Your task to perform on an android device: View the shopping cart on amazon. Search for "bose soundsport free" on amazon, select the first entry, add it to the cart, then select checkout. Image 0: 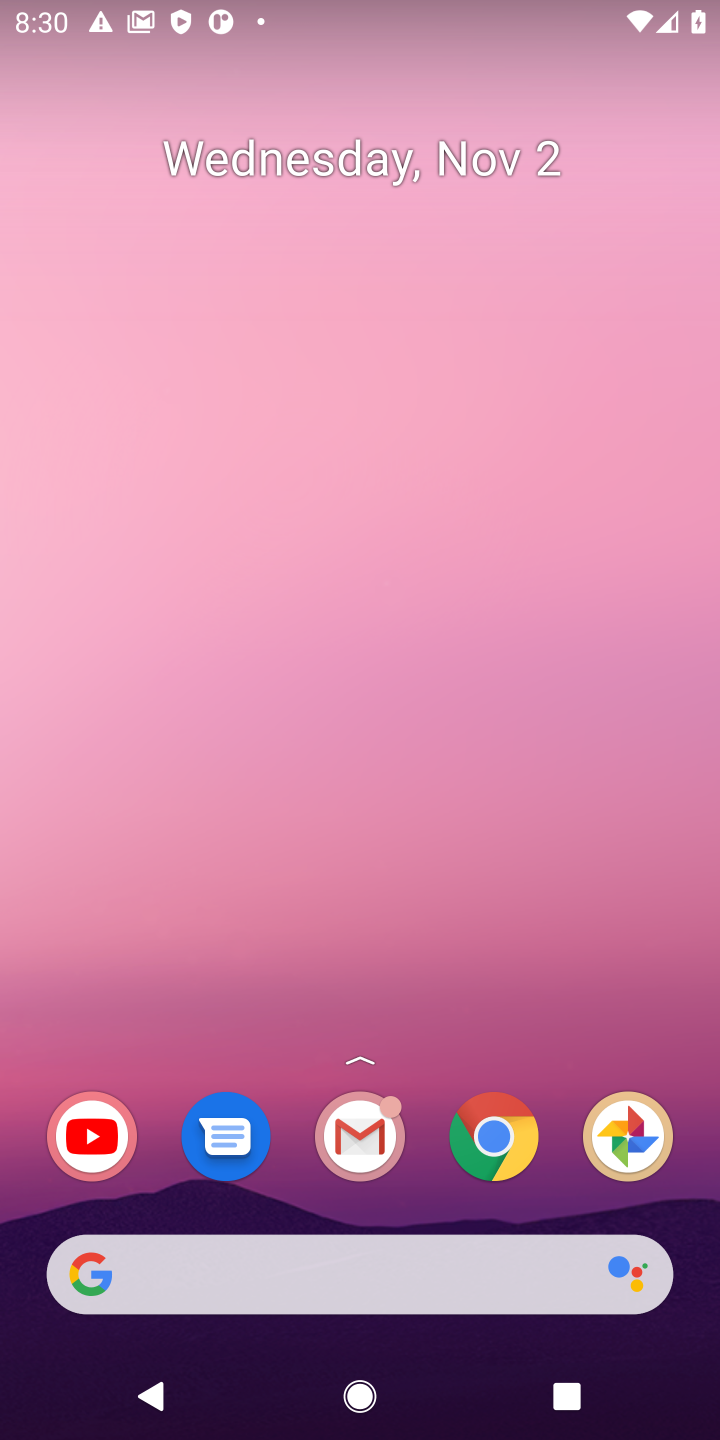
Step 0: drag from (303, 1112) to (332, 583)
Your task to perform on an android device: View the shopping cart on amazon. Search for "bose soundsport free" on amazon, select the first entry, add it to the cart, then select checkout. Image 1: 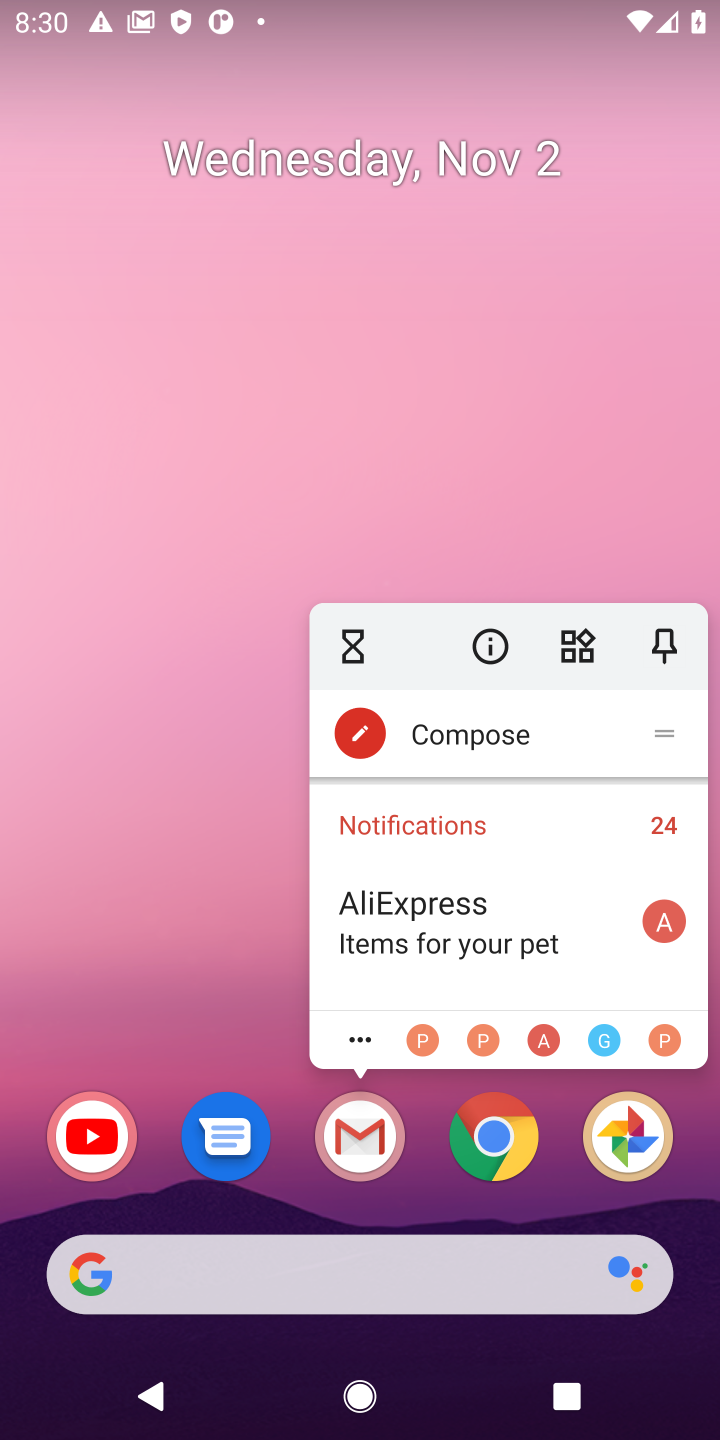
Step 1: click (51, 625)
Your task to perform on an android device: View the shopping cart on amazon. Search for "bose soundsport free" on amazon, select the first entry, add it to the cart, then select checkout. Image 2: 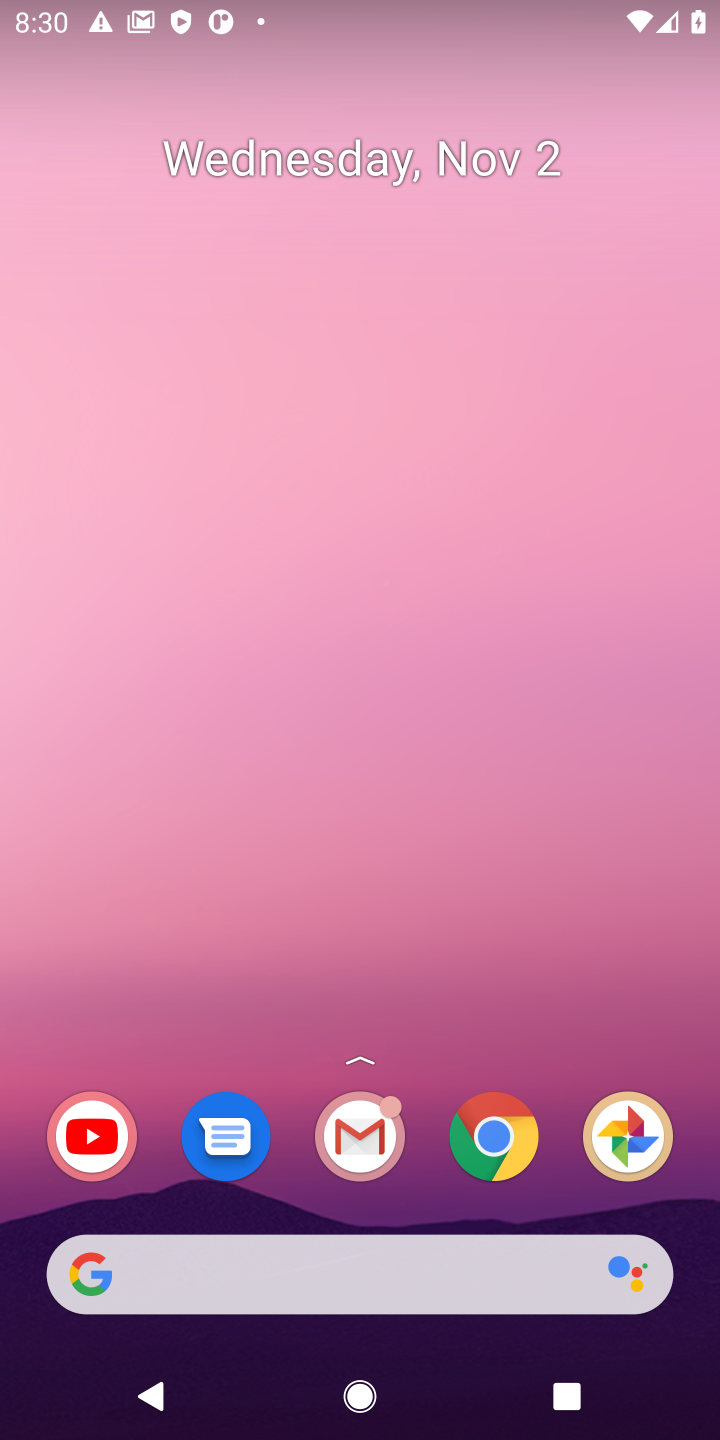
Step 2: drag from (351, 1279) to (311, 440)
Your task to perform on an android device: View the shopping cart on amazon. Search for "bose soundsport free" on amazon, select the first entry, add it to the cart, then select checkout. Image 3: 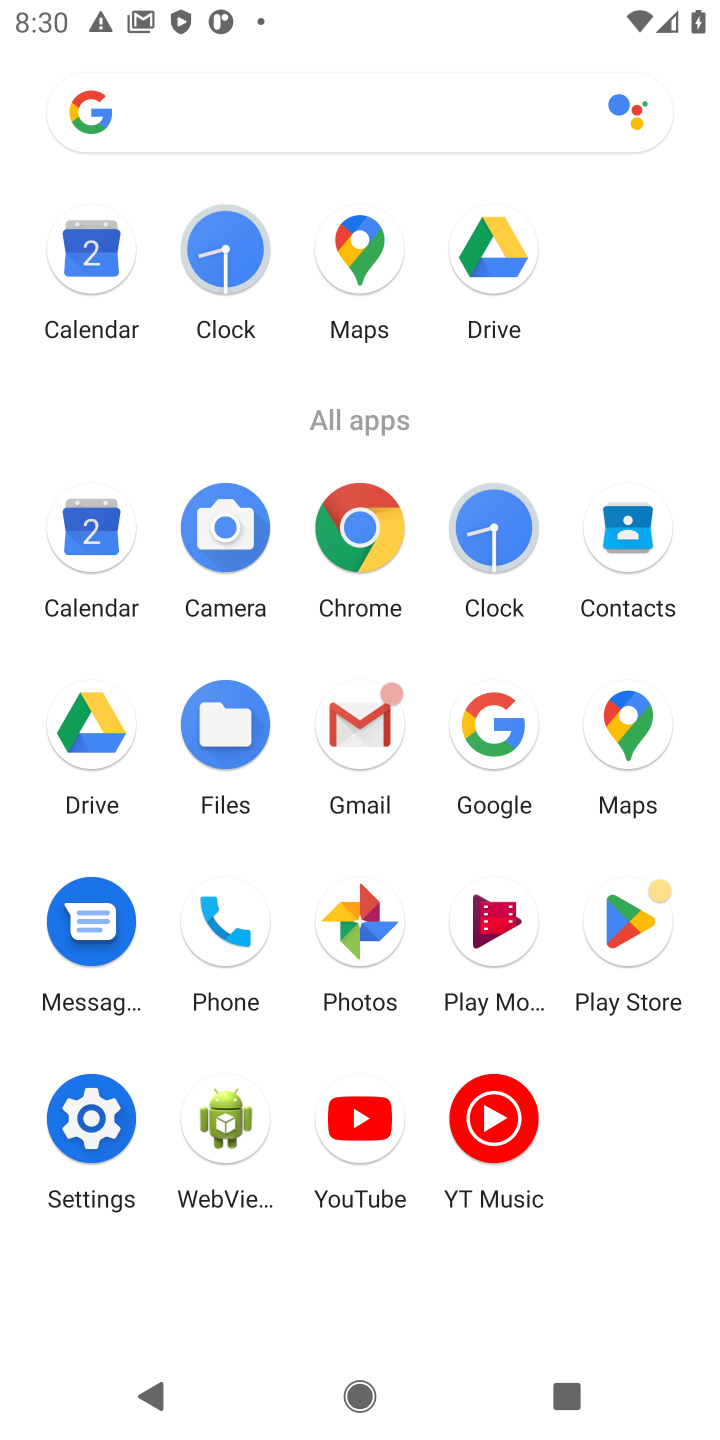
Step 3: click (512, 709)
Your task to perform on an android device: View the shopping cart on amazon. Search for "bose soundsport free" on amazon, select the first entry, add it to the cart, then select checkout. Image 4: 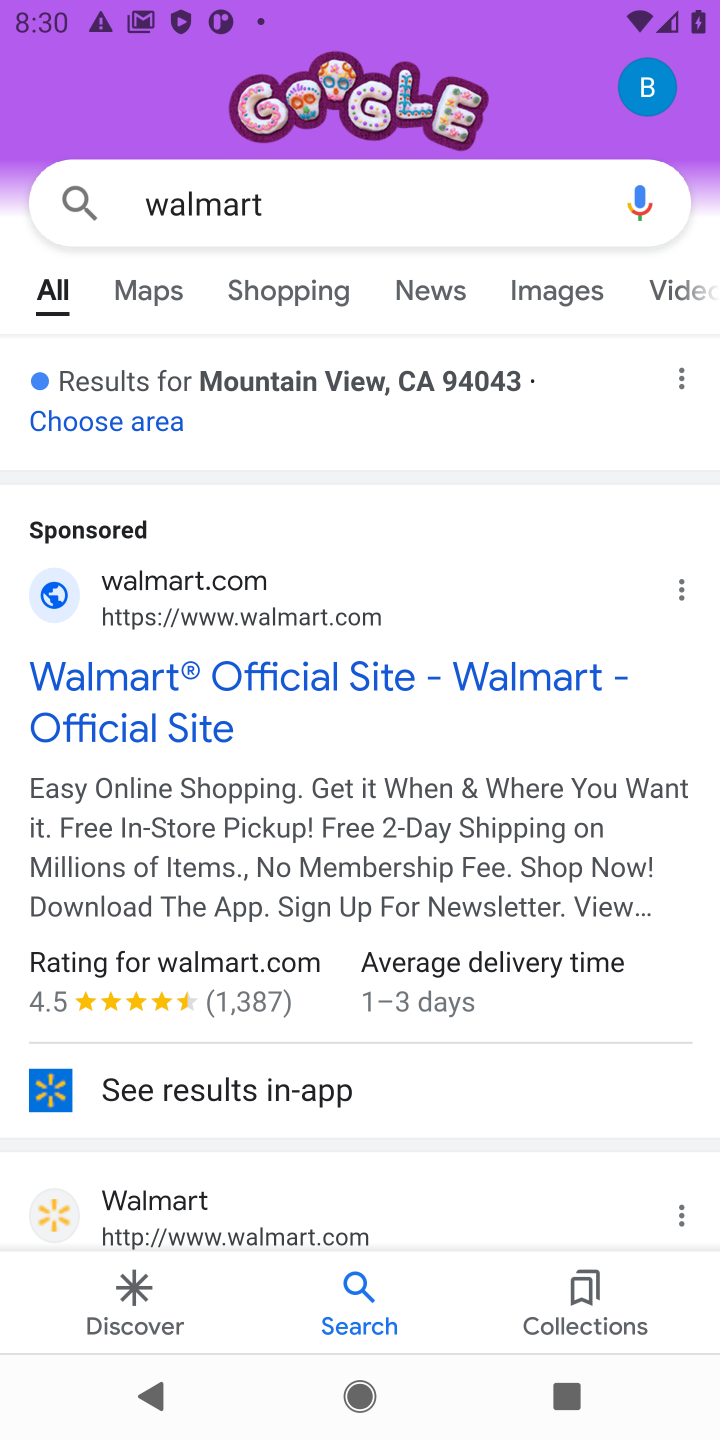
Step 4: click (319, 183)
Your task to perform on an android device: View the shopping cart on amazon. Search for "bose soundsport free" on amazon, select the first entry, add it to the cart, then select checkout. Image 5: 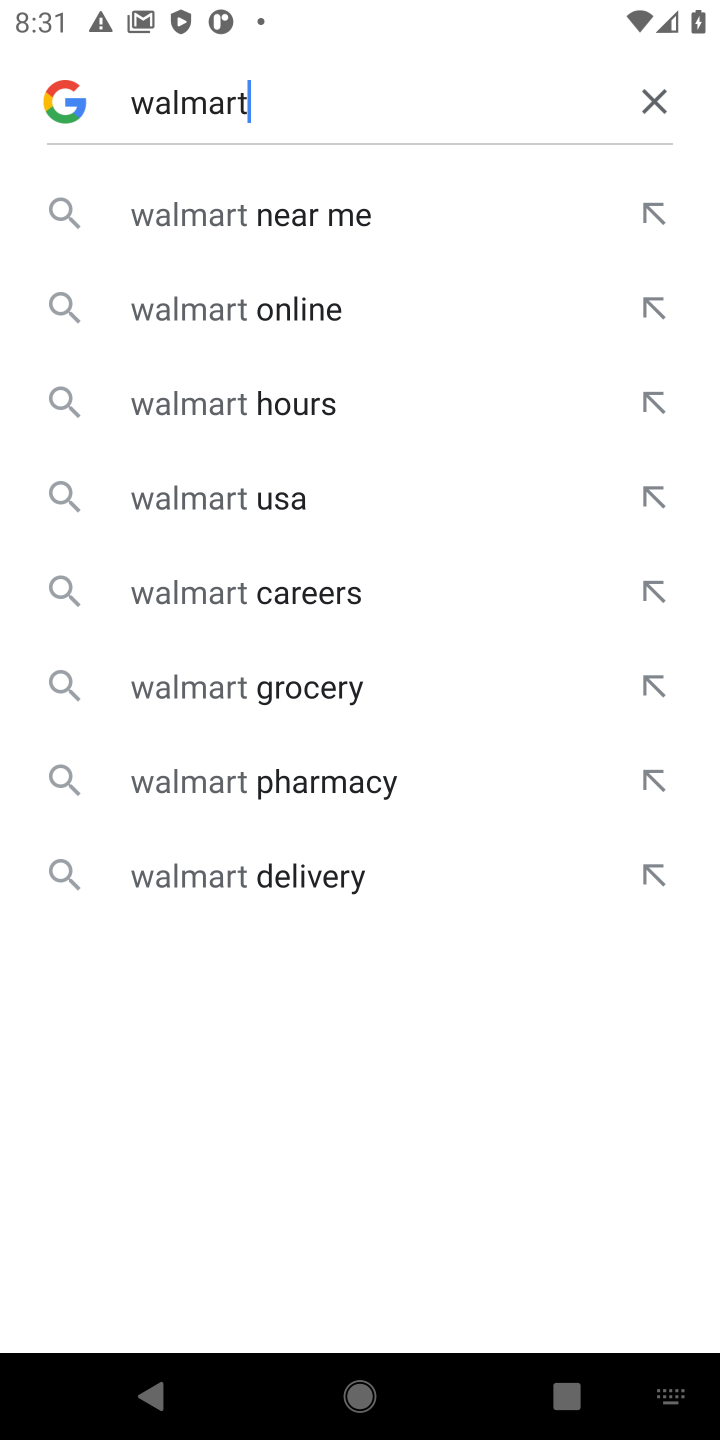
Step 5: click (635, 82)
Your task to perform on an android device: View the shopping cart on amazon. Search for "bose soundsport free" on amazon, select the first entry, add it to the cart, then select checkout. Image 6: 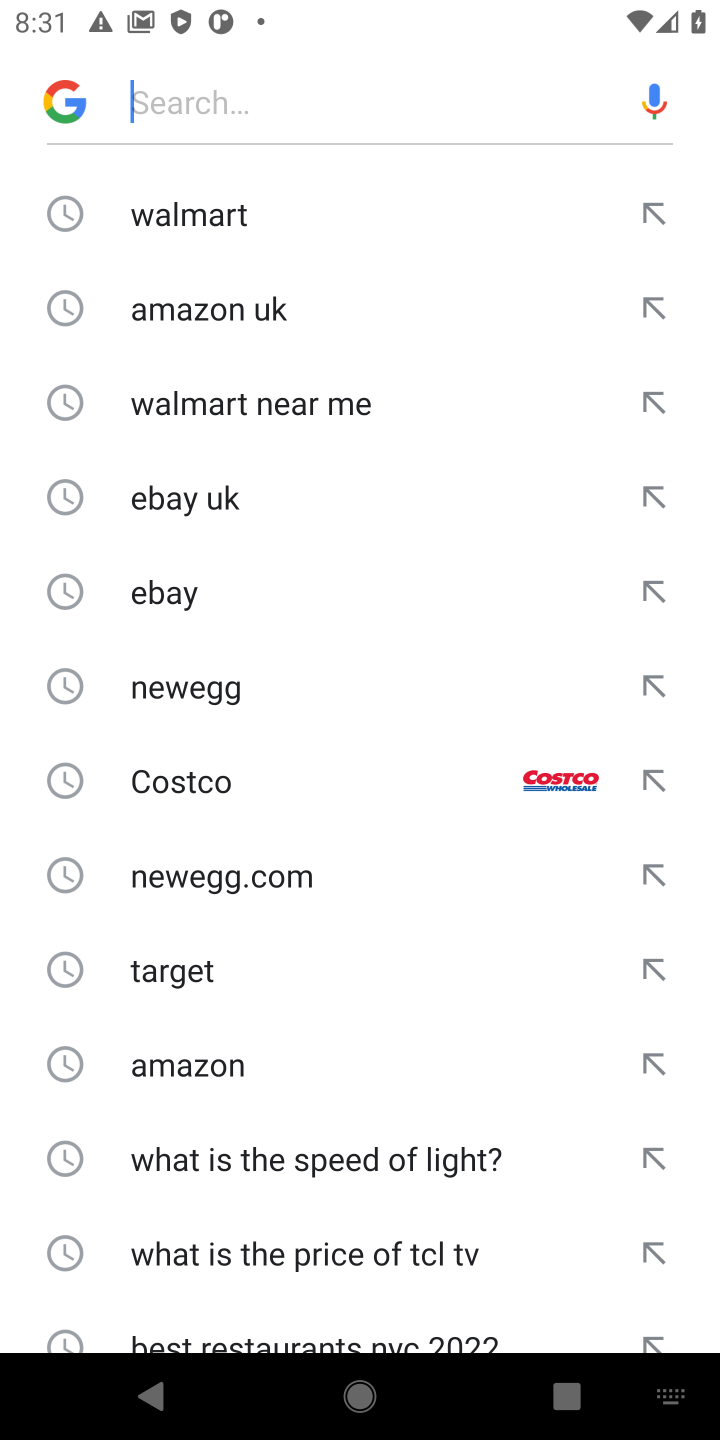
Step 6: click (158, 1038)
Your task to perform on an android device: View the shopping cart on amazon. Search for "bose soundsport free" on amazon, select the first entry, add it to the cart, then select checkout. Image 7: 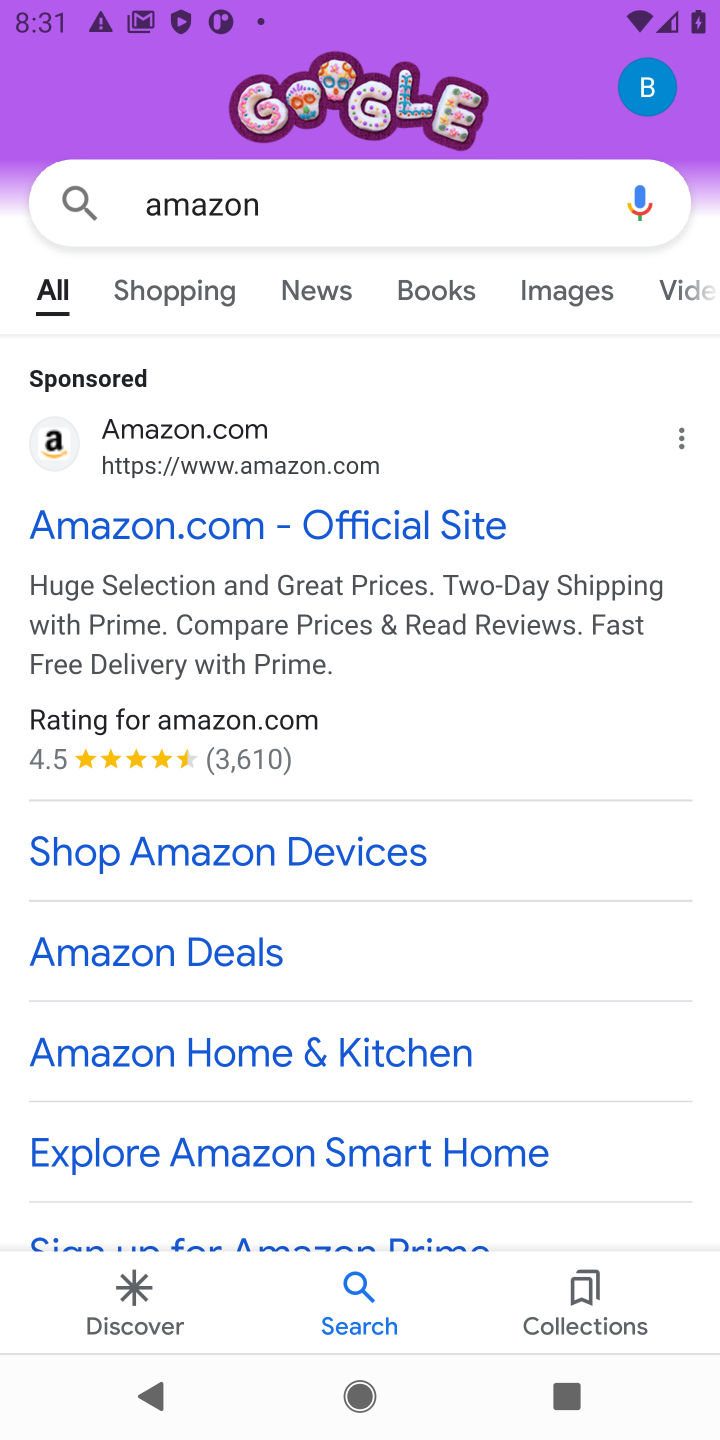
Step 7: click (180, 514)
Your task to perform on an android device: View the shopping cart on amazon. Search for "bose soundsport free" on amazon, select the first entry, add it to the cart, then select checkout. Image 8: 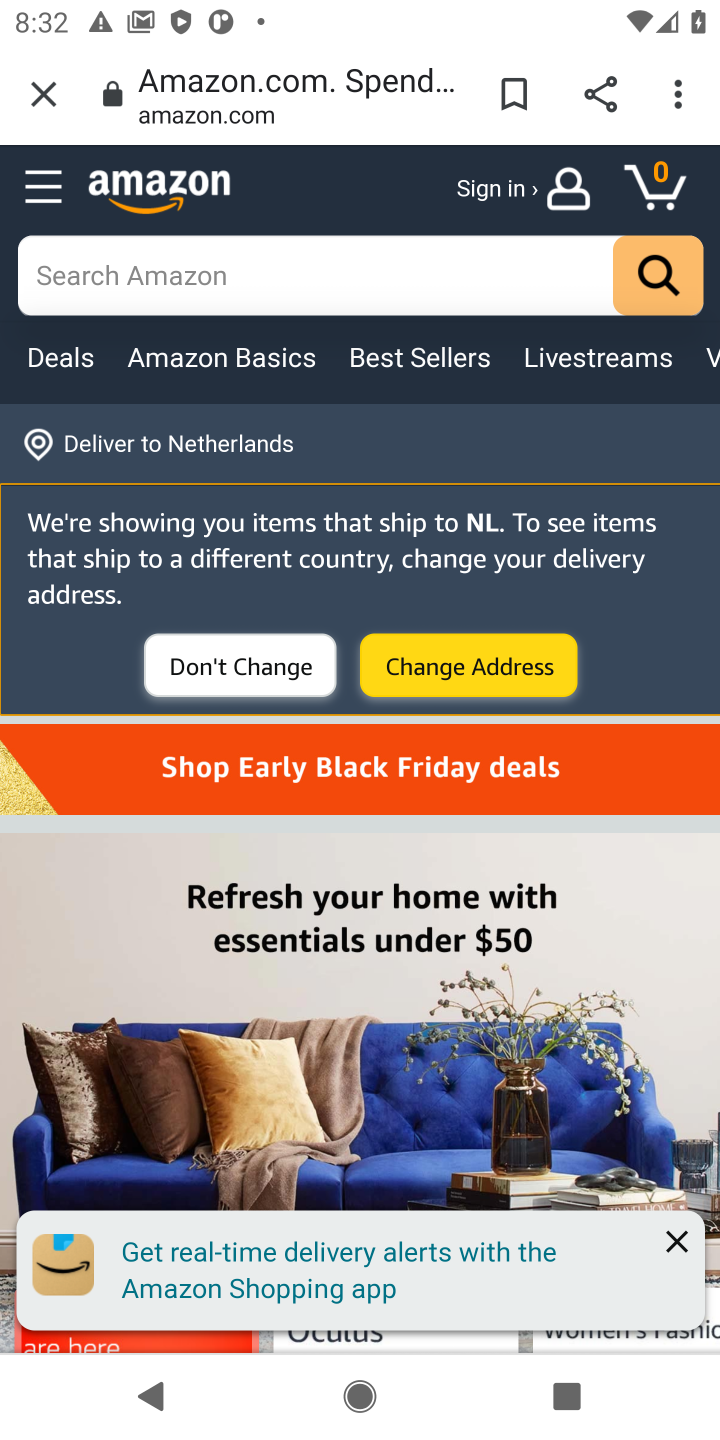
Step 8: click (286, 268)
Your task to perform on an android device: View the shopping cart on amazon. Search for "bose soundsport free" on amazon, select the first entry, add it to the cart, then select checkout. Image 9: 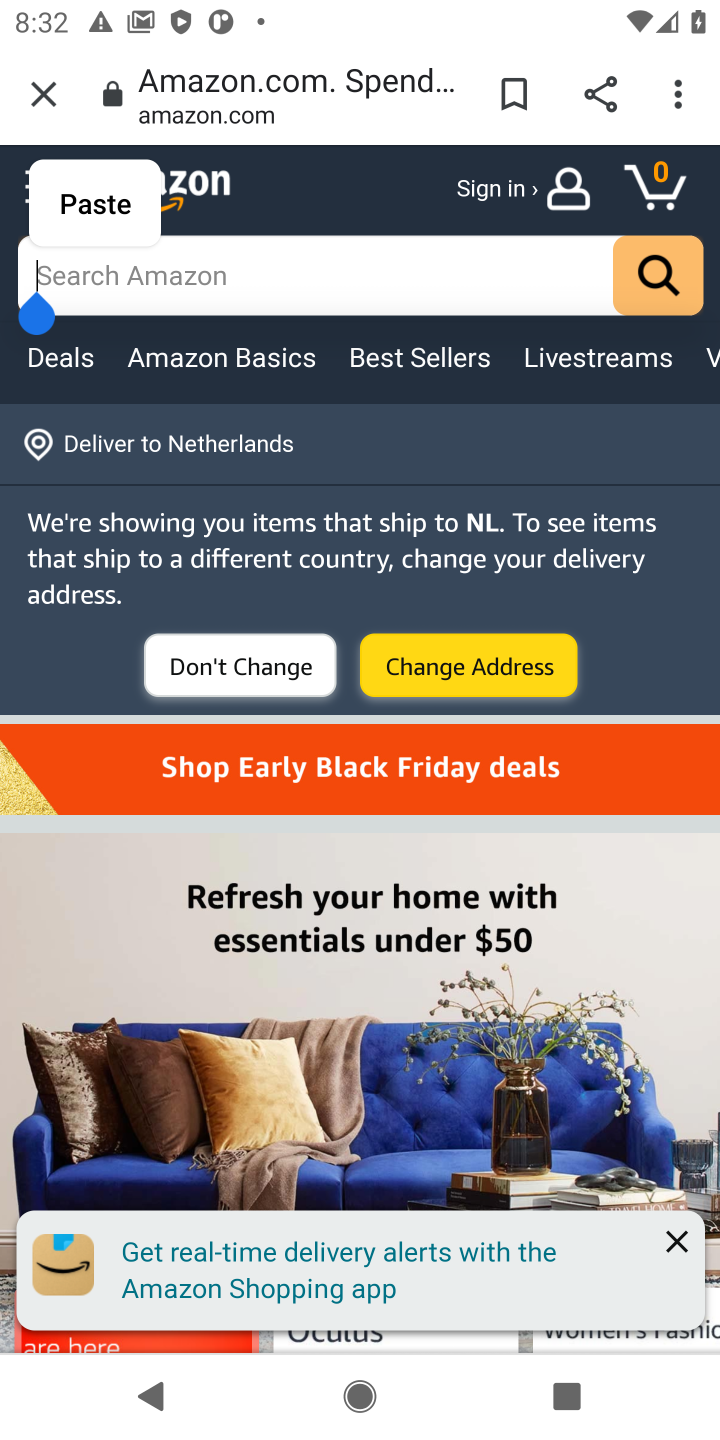
Step 9: click (282, 268)
Your task to perform on an android device: View the shopping cart on amazon. Search for "bose soundsport free" on amazon, select the first entry, add it to the cart, then select checkout. Image 10: 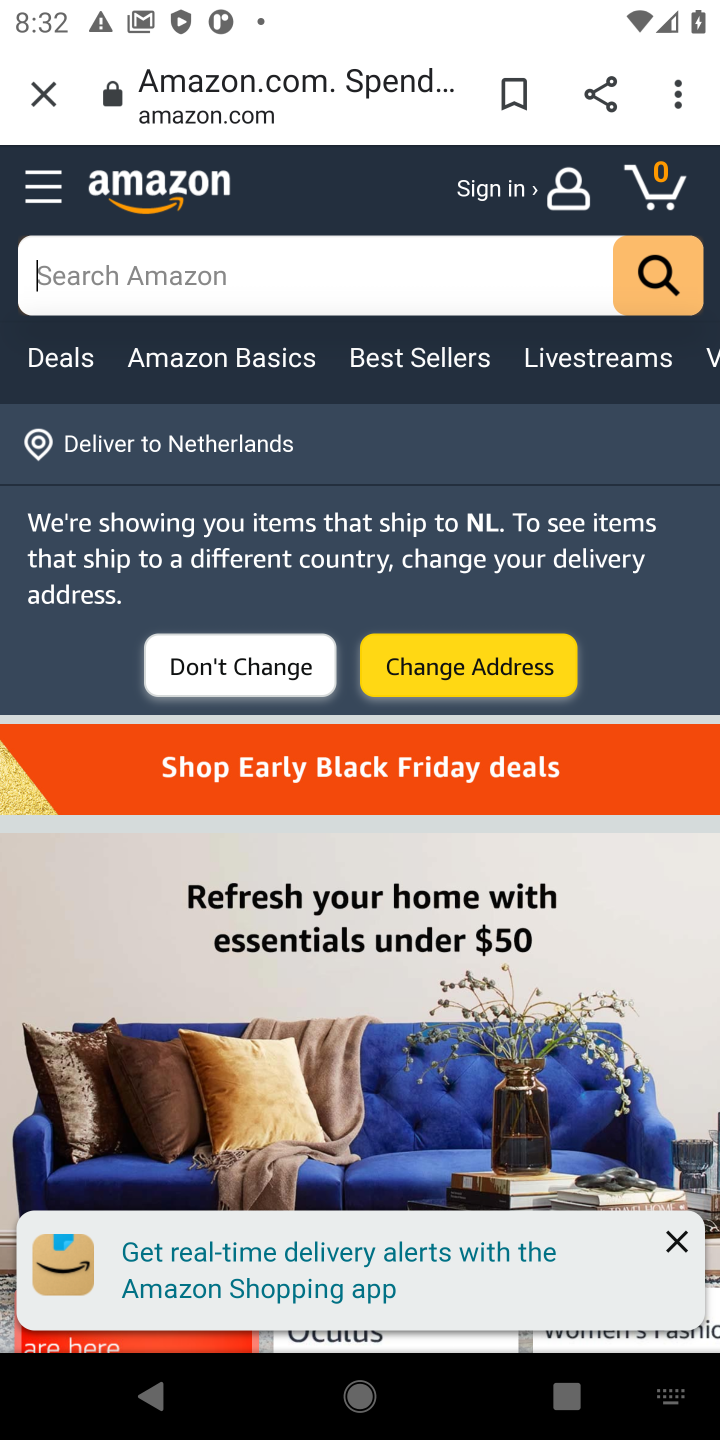
Step 10: type "bose soundsport  "
Your task to perform on an android device: View the shopping cart on amazon. Search for "bose soundsport free" on amazon, select the first entry, add it to the cart, then select checkout. Image 11: 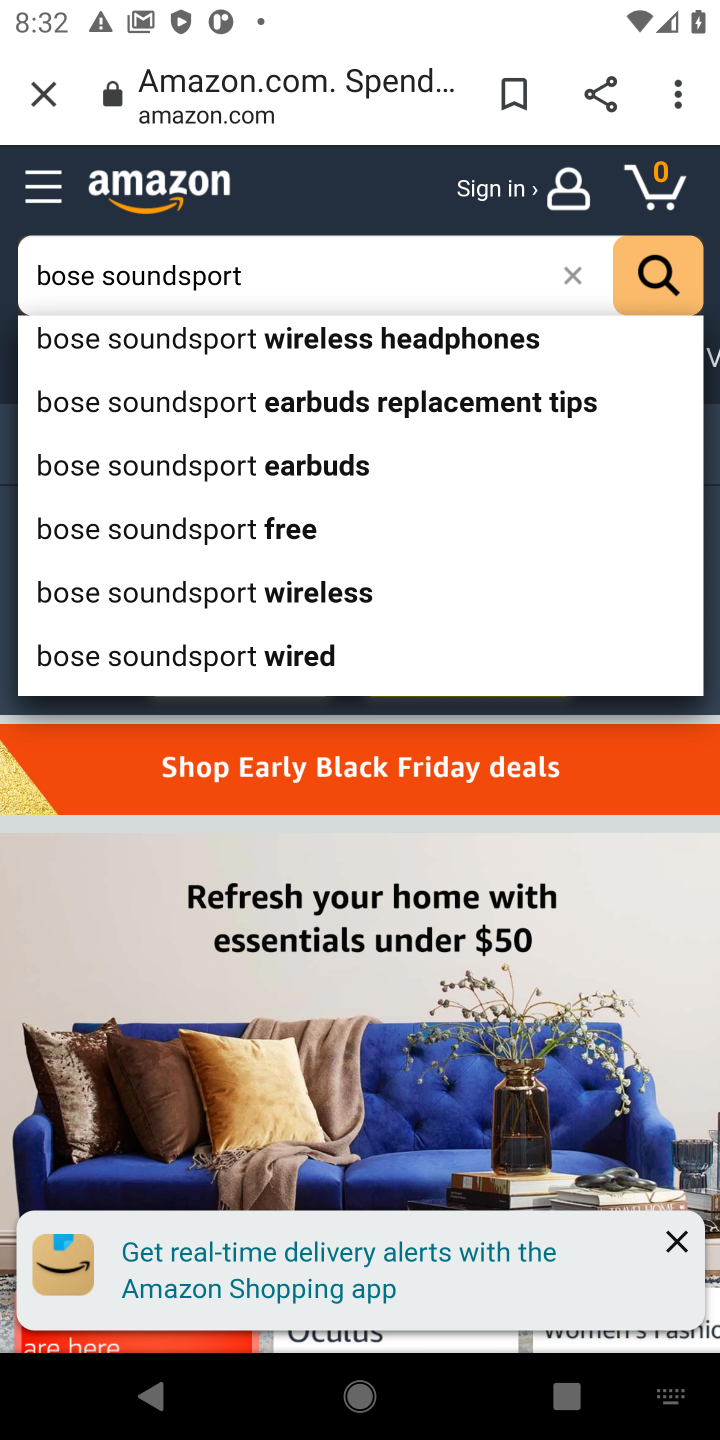
Step 11: click (159, 517)
Your task to perform on an android device: View the shopping cart on amazon. Search for "bose soundsport free" on amazon, select the first entry, add it to the cart, then select checkout. Image 12: 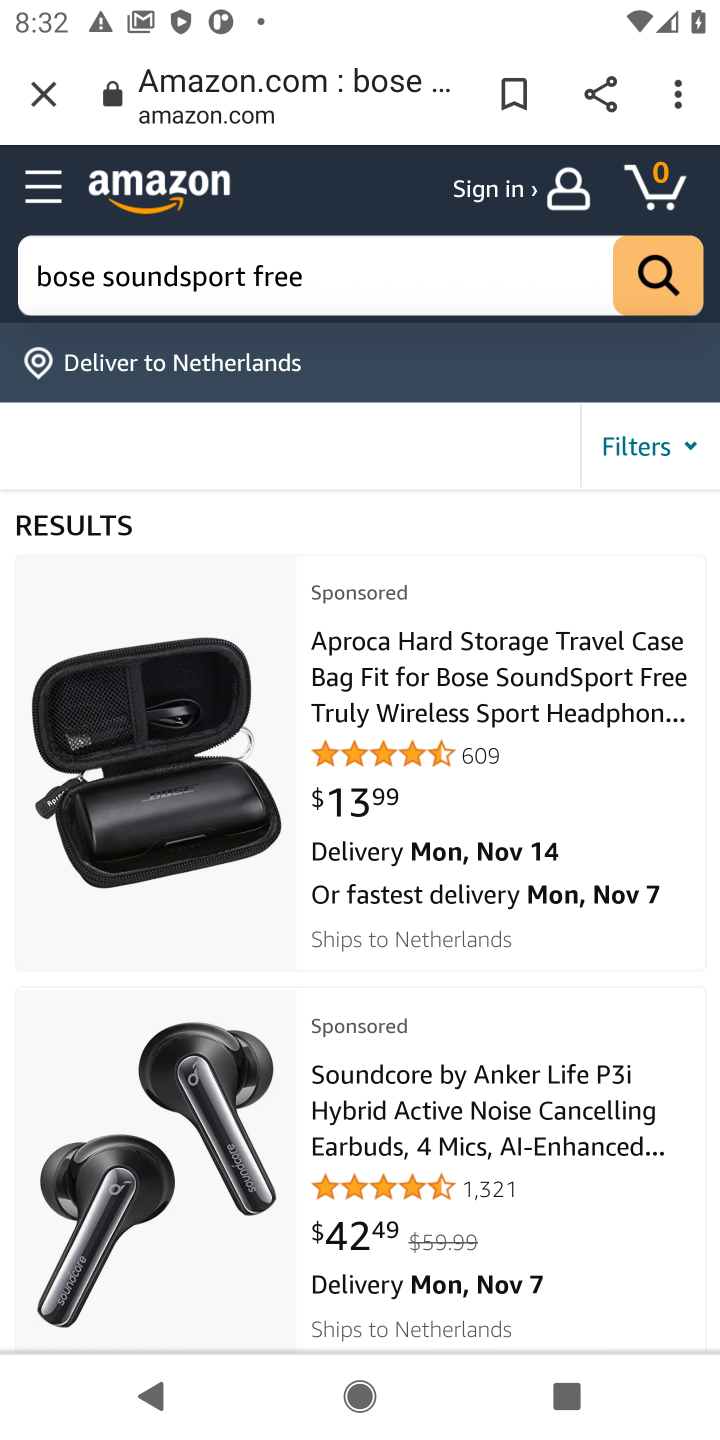
Step 12: click (482, 686)
Your task to perform on an android device: View the shopping cart on amazon. Search for "bose soundsport free" on amazon, select the first entry, add it to the cart, then select checkout. Image 13: 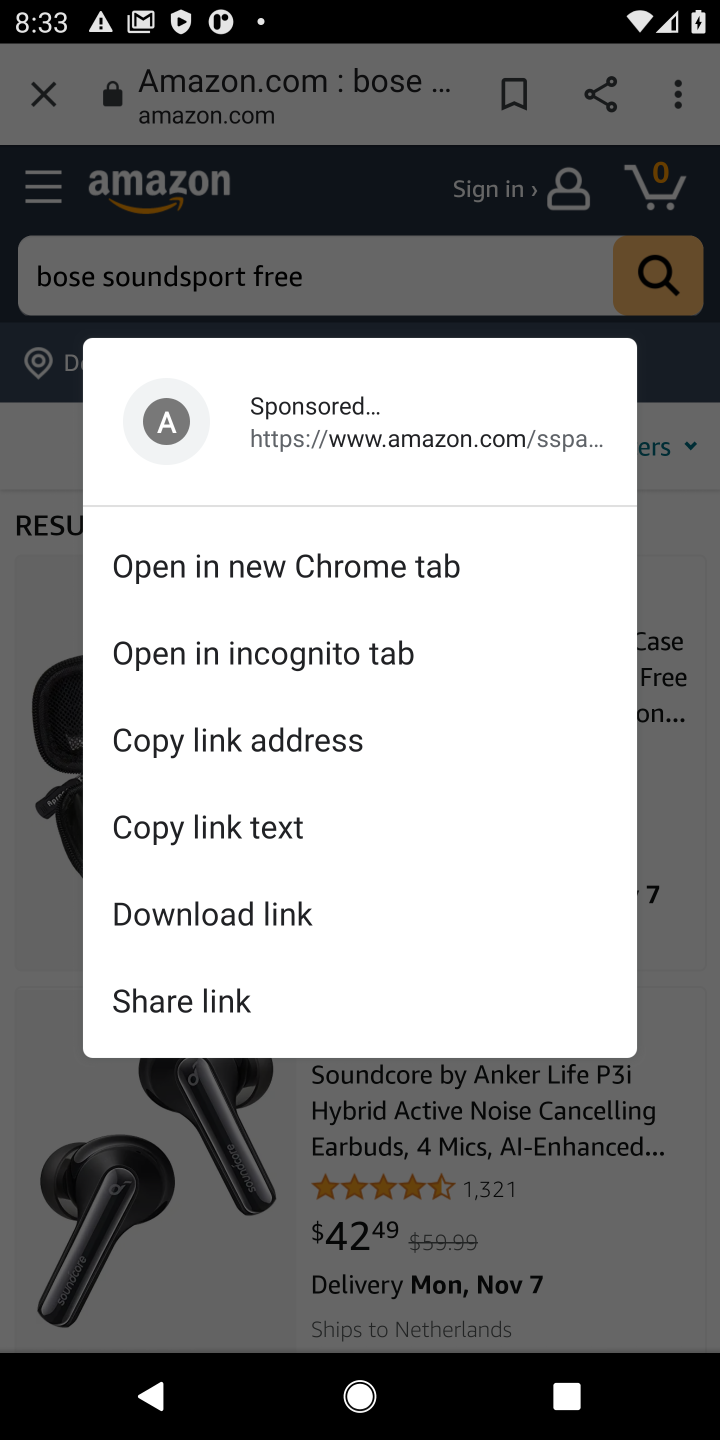
Step 13: click (646, 1184)
Your task to perform on an android device: View the shopping cart on amazon. Search for "bose soundsport free" on amazon, select the first entry, add it to the cart, then select checkout. Image 14: 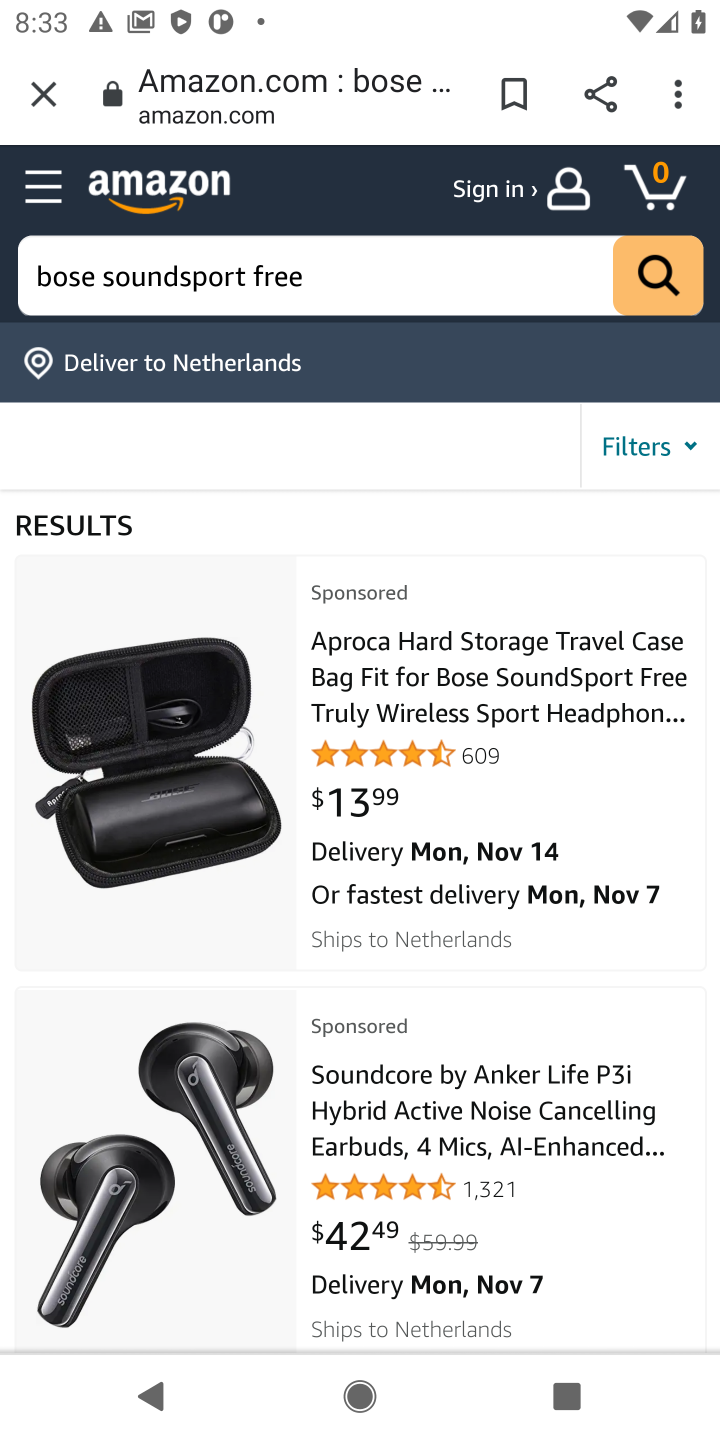
Step 14: drag from (399, 1012) to (457, 524)
Your task to perform on an android device: View the shopping cart on amazon. Search for "bose soundsport free" on amazon, select the first entry, add it to the cart, then select checkout. Image 15: 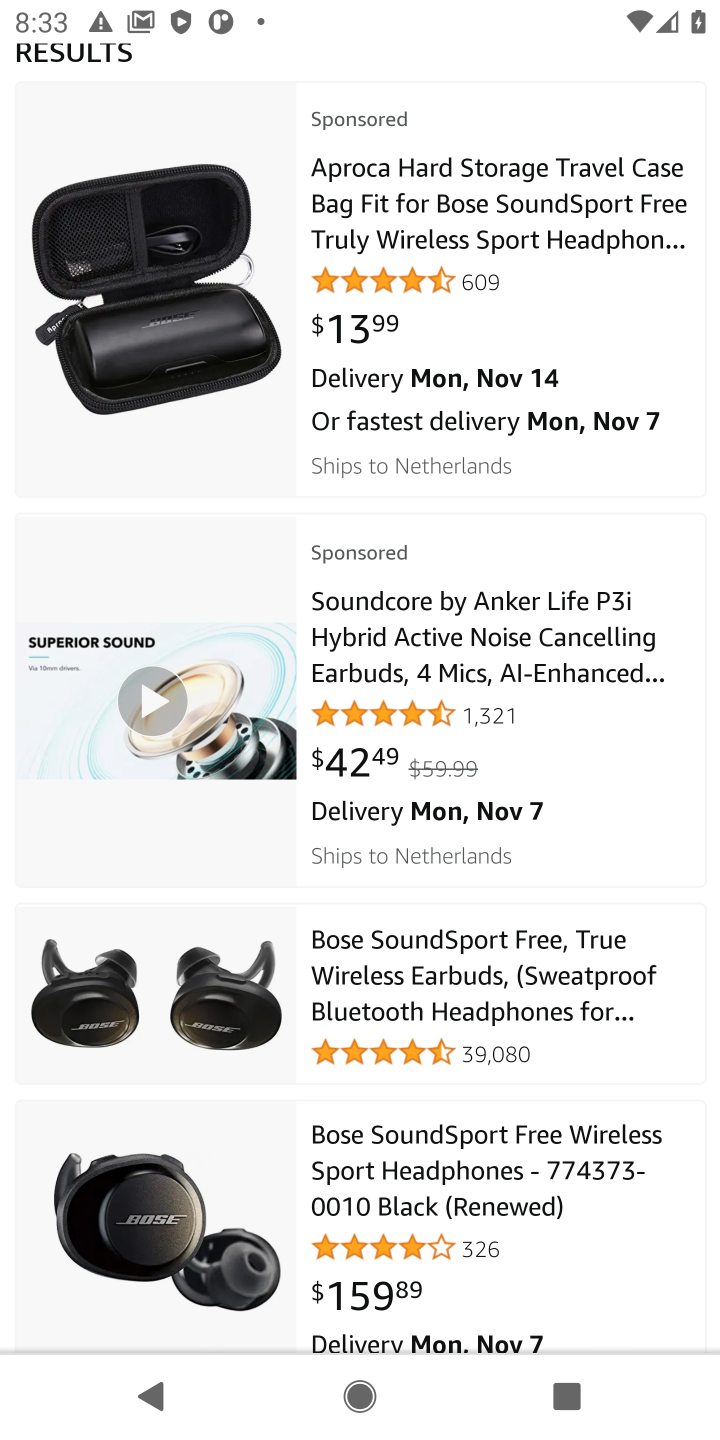
Step 15: click (421, 1131)
Your task to perform on an android device: View the shopping cart on amazon. Search for "bose soundsport free" on amazon, select the first entry, add it to the cart, then select checkout. Image 16: 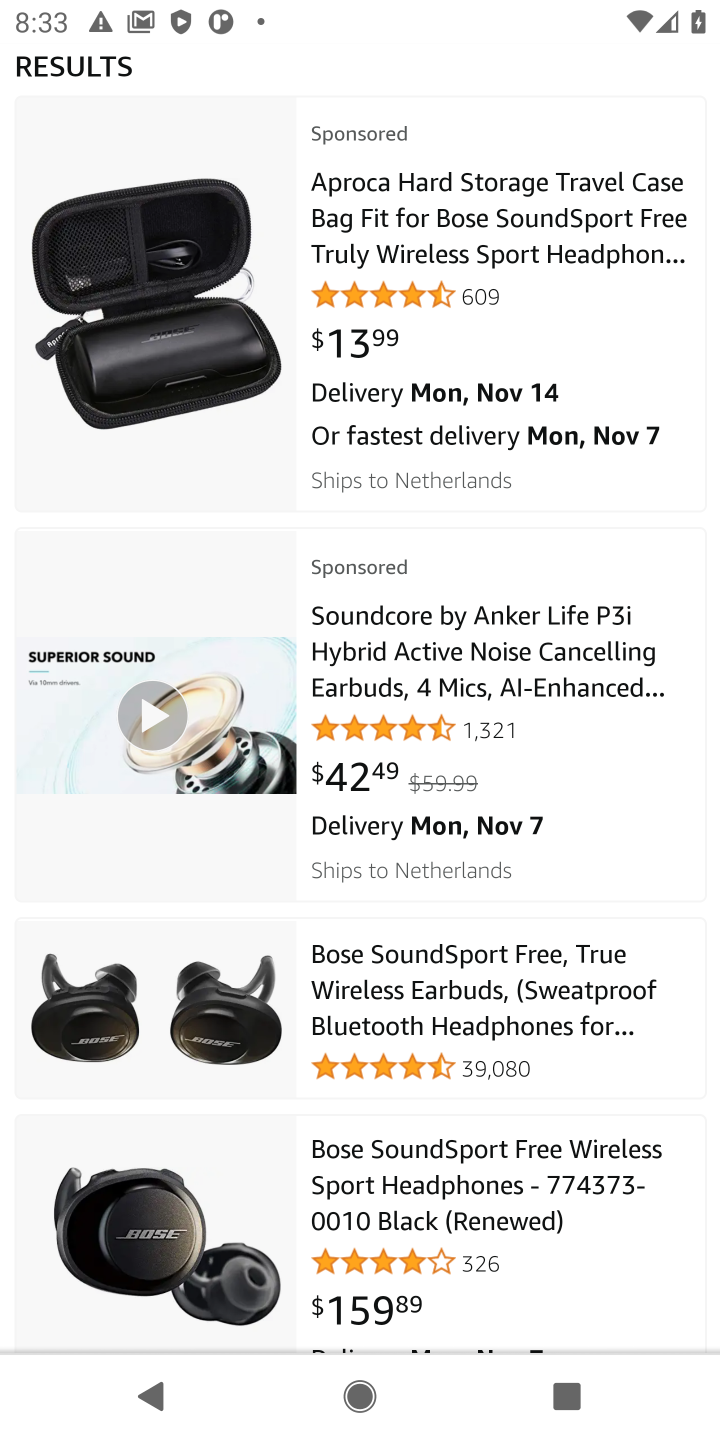
Step 16: press back button
Your task to perform on an android device: View the shopping cart on amazon. Search for "bose soundsport free" on amazon, select the first entry, add it to the cart, then select checkout. Image 17: 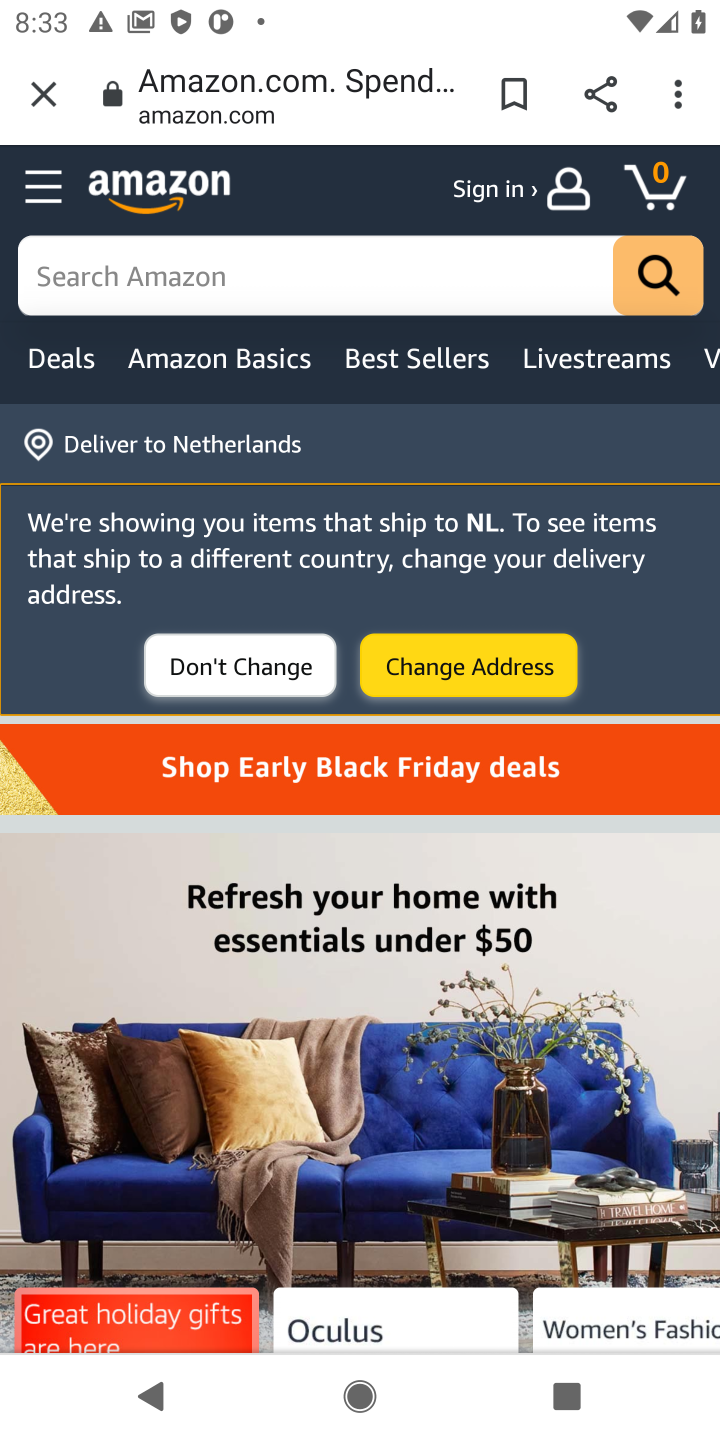
Step 17: click (427, 265)
Your task to perform on an android device: View the shopping cart on amazon. Search for "bose soundsport free" on amazon, select the first entry, add it to the cart, then select checkout. Image 18: 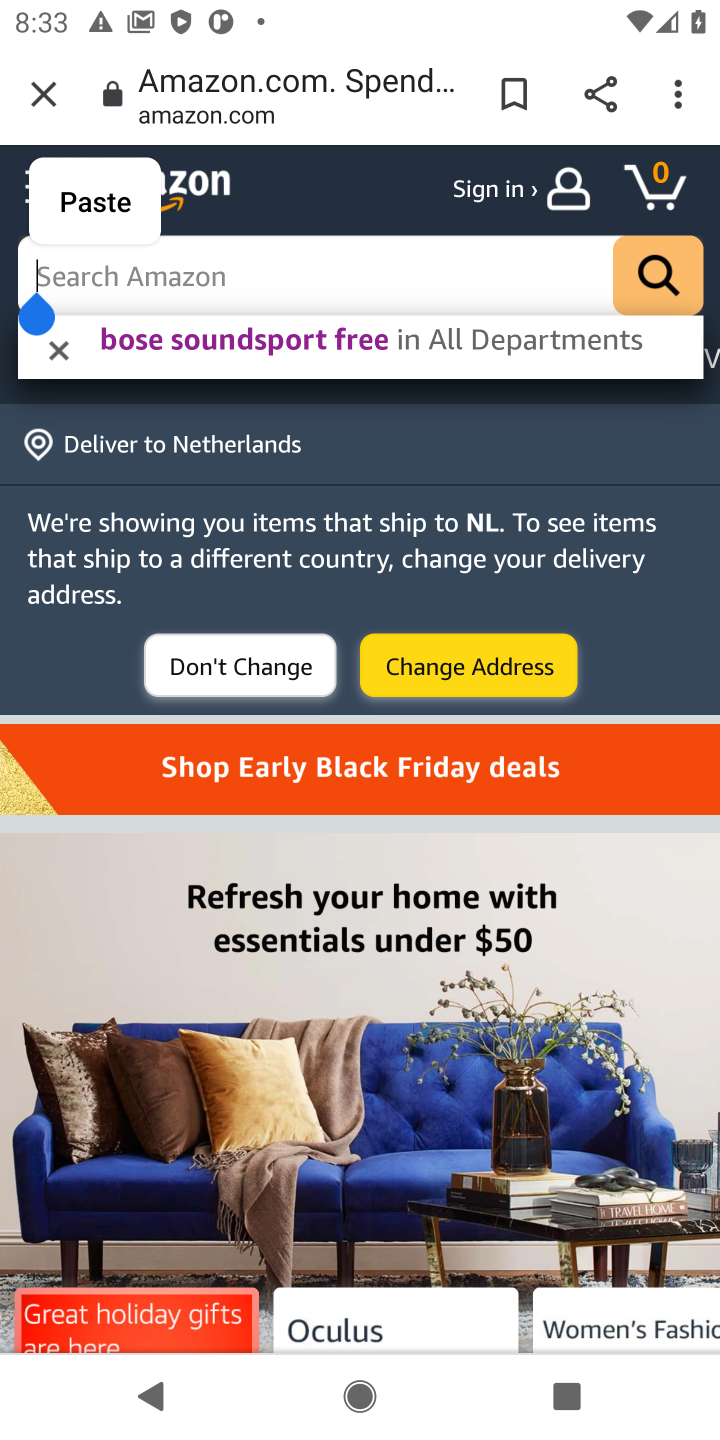
Step 18: type "bose soundsport free "
Your task to perform on an android device: View the shopping cart on amazon. Search for "bose soundsport free" on amazon, select the first entry, add it to the cart, then select checkout. Image 19: 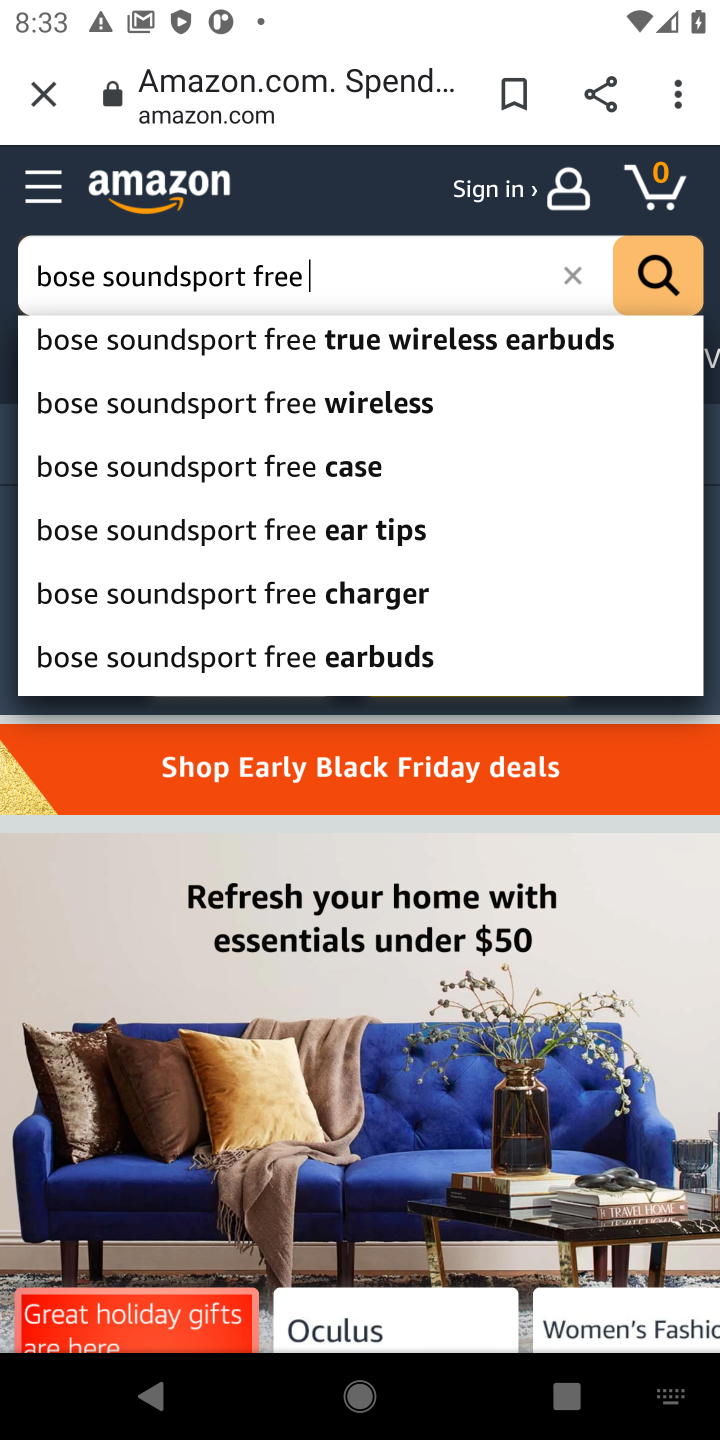
Step 19: click (160, 338)
Your task to perform on an android device: View the shopping cart on amazon. Search for "bose soundsport free" on amazon, select the first entry, add it to the cart, then select checkout. Image 20: 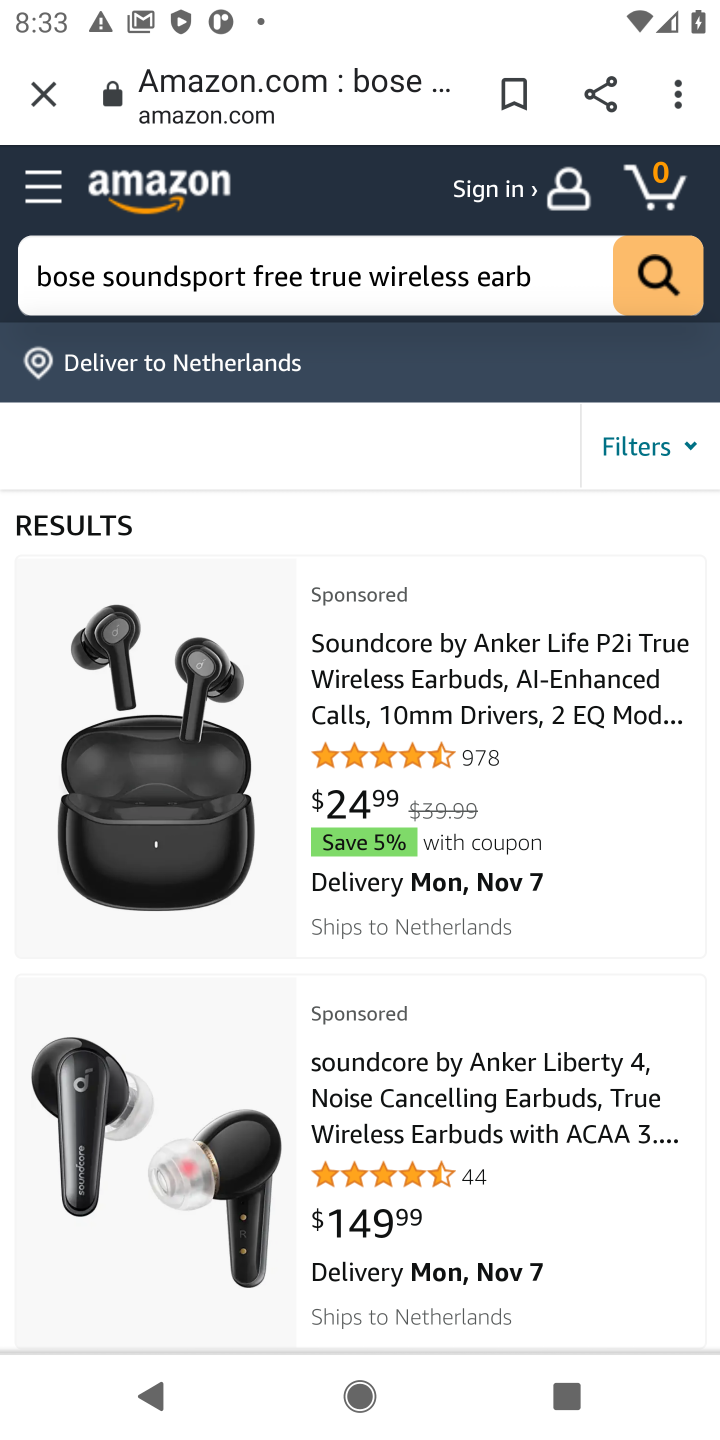
Step 20: click (494, 647)
Your task to perform on an android device: View the shopping cart on amazon. Search for "bose soundsport free" on amazon, select the first entry, add it to the cart, then select checkout. Image 21: 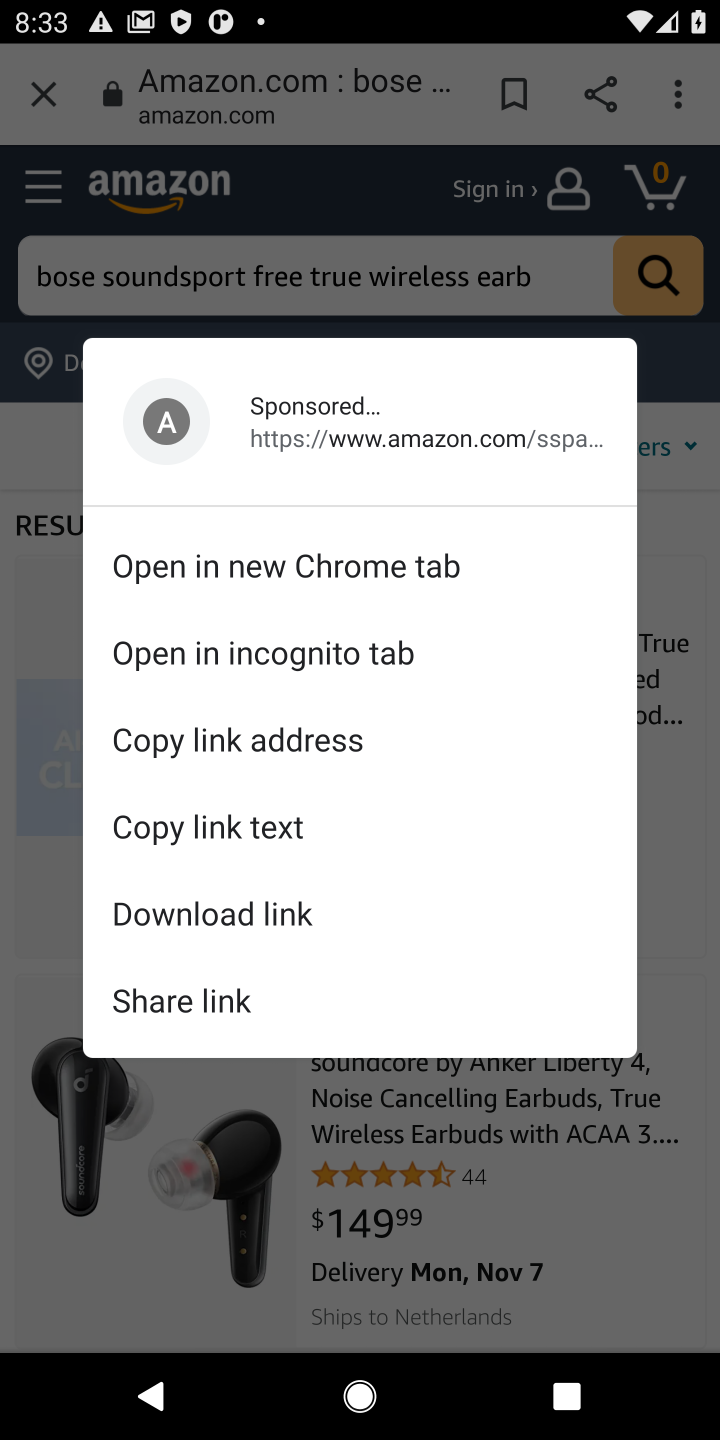
Step 21: click (712, 644)
Your task to perform on an android device: View the shopping cart on amazon. Search for "bose soundsport free" on amazon, select the first entry, add it to the cart, then select checkout. Image 22: 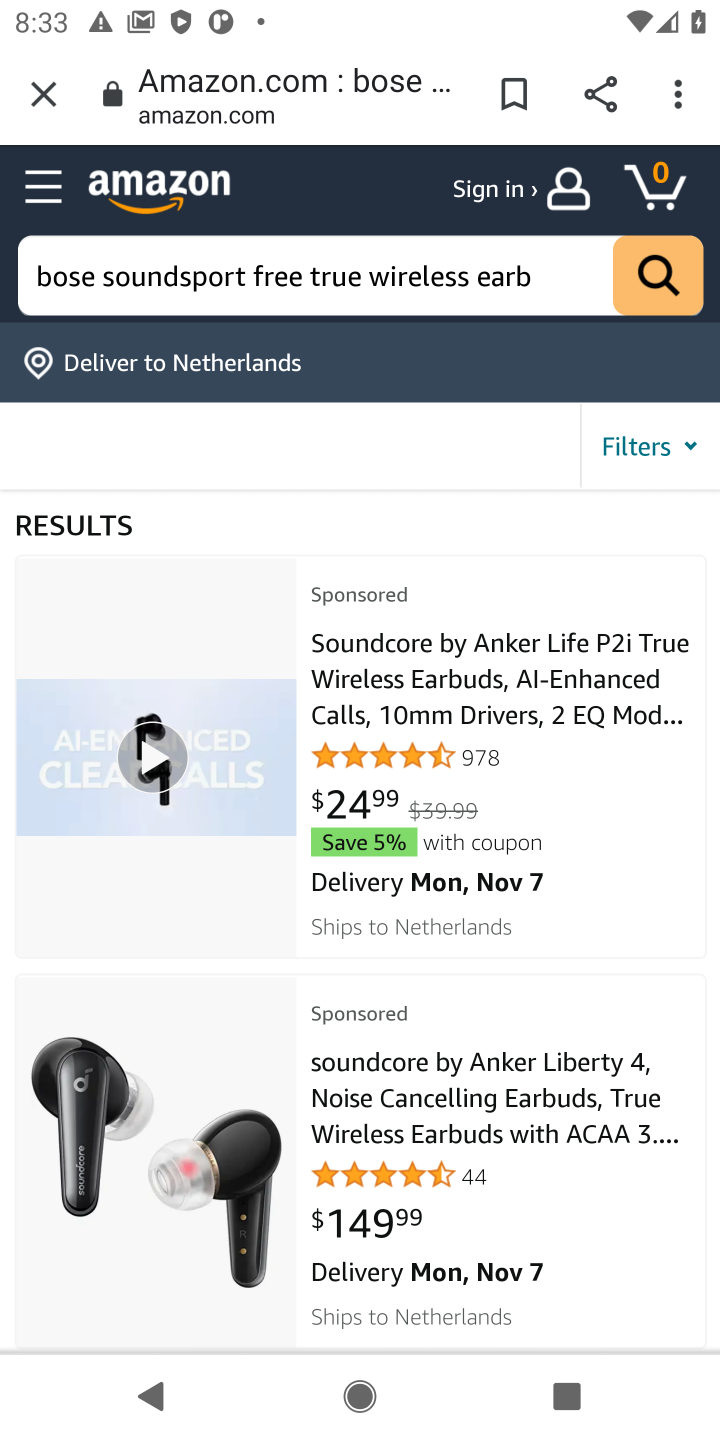
Step 22: click (683, 677)
Your task to perform on an android device: View the shopping cart on amazon. Search for "bose soundsport free" on amazon, select the first entry, add it to the cart, then select checkout. Image 23: 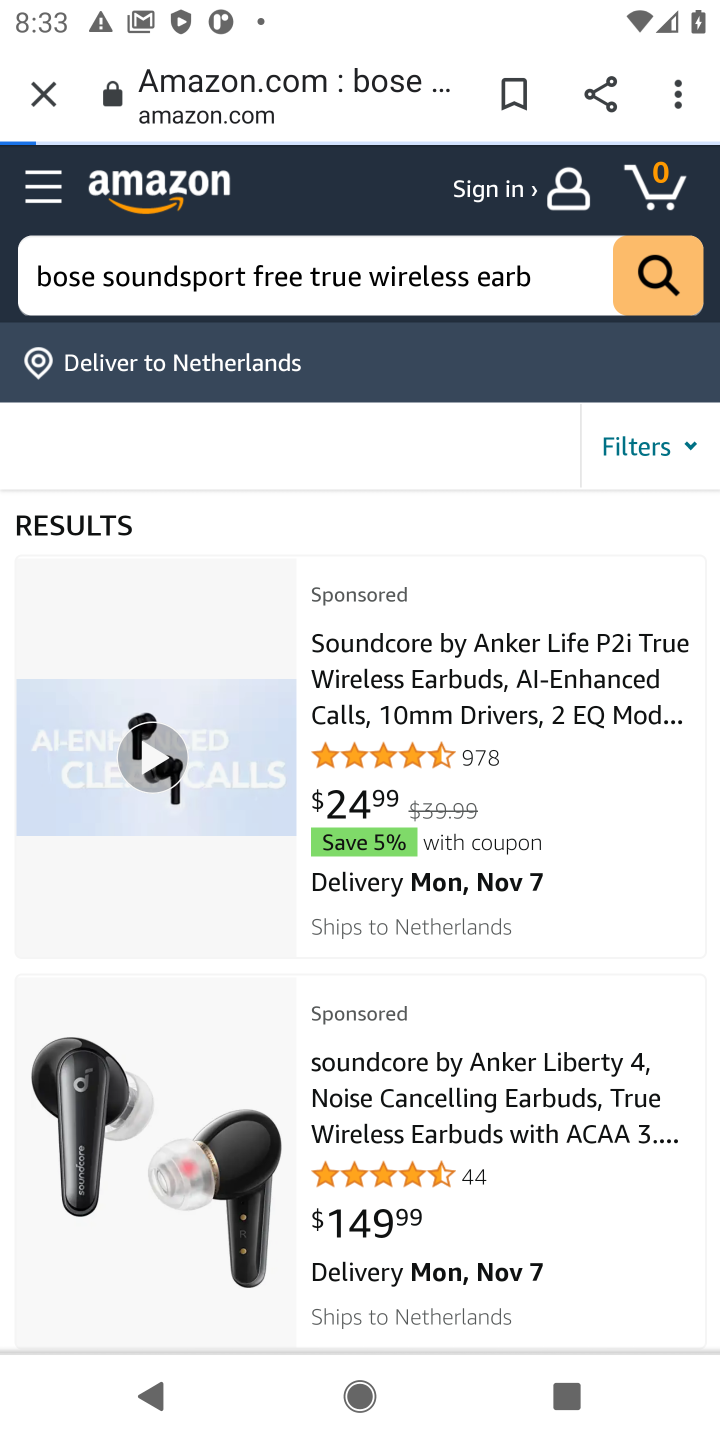
Step 23: click (235, 801)
Your task to perform on an android device: View the shopping cart on amazon. Search for "bose soundsport free" on amazon, select the first entry, add it to the cart, then select checkout. Image 24: 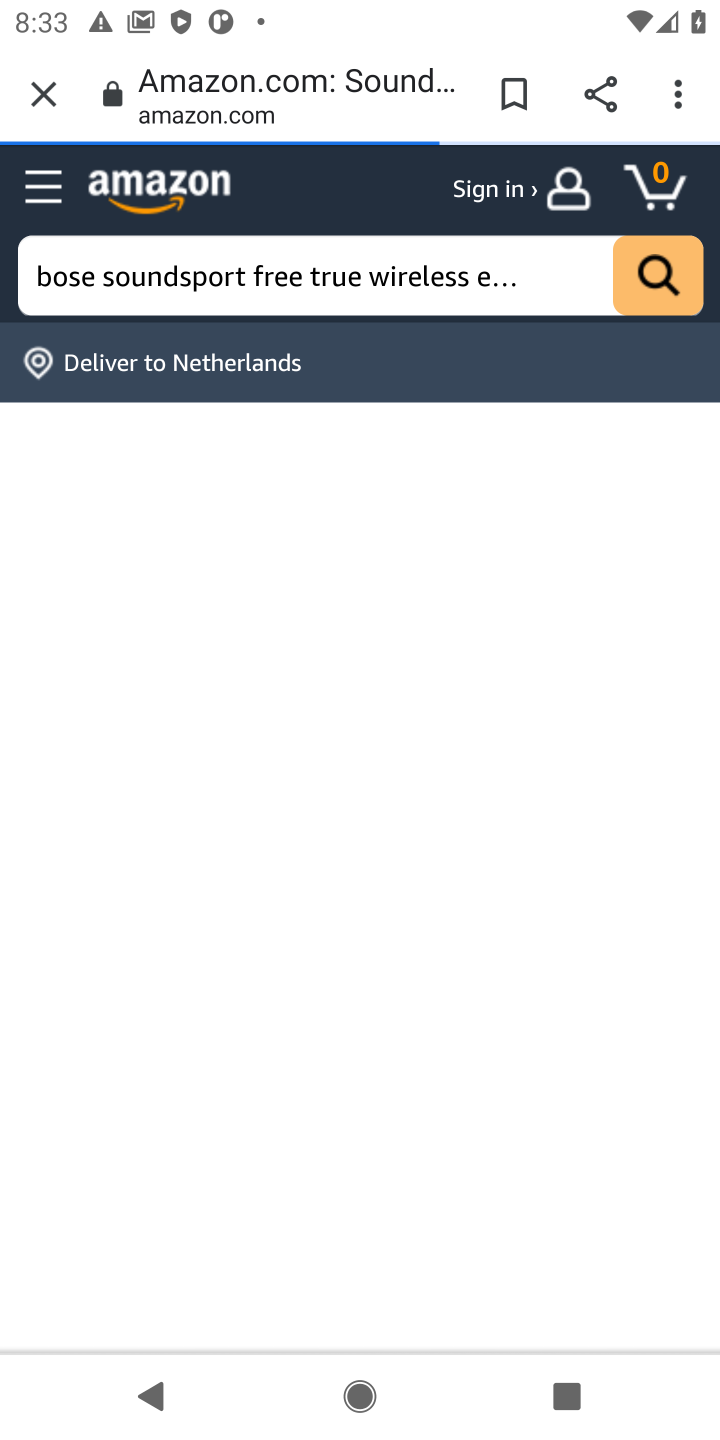
Step 24: click (391, 708)
Your task to perform on an android device: View the shopping cart on amazon. Search for "bose soundsport free" on amazon, select the first entry, add it to the cart, then select checkout. Image 25: 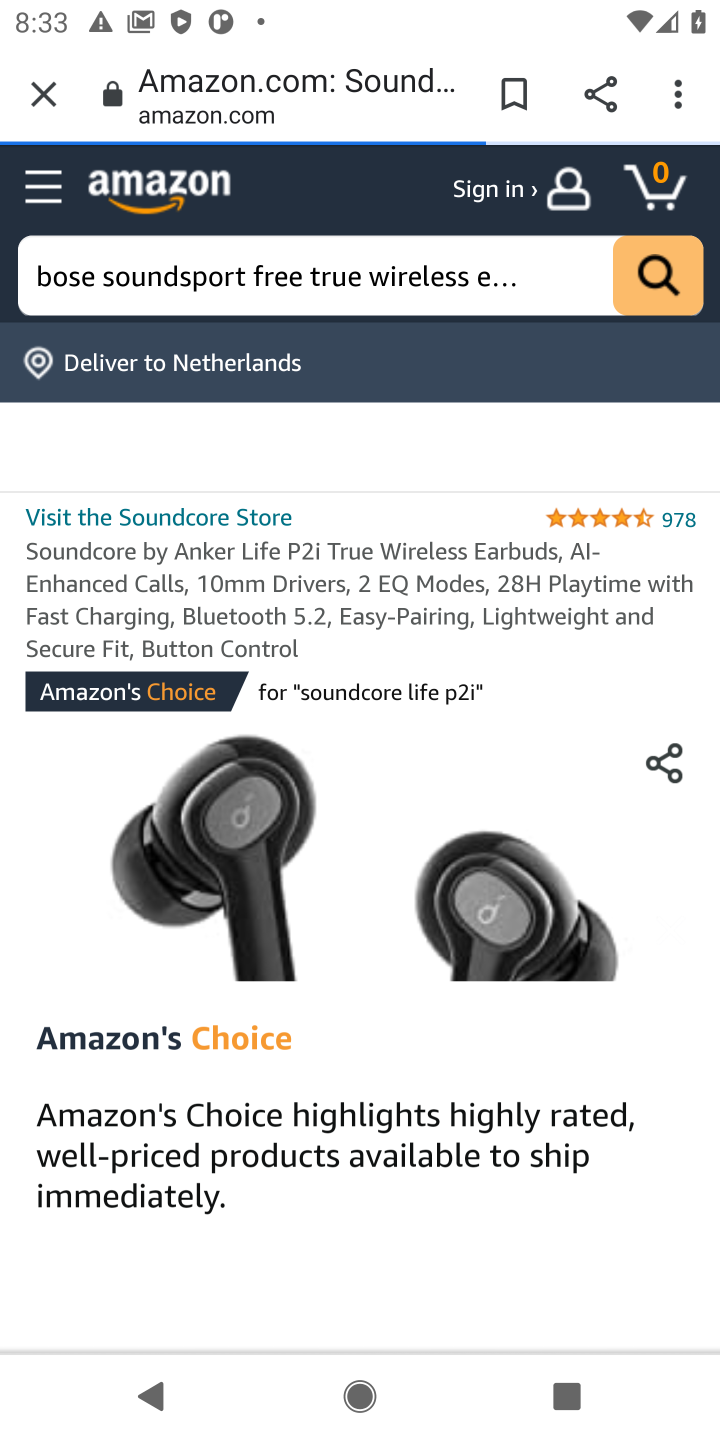
Step 25: drag from (383, 1173) to (459, 509)
Your task to perform on an android device: View the shopping cart on amazon. Search for "bose soundsport free" on amazon, select the first entry, add it to the cart, then select checkout. Image 26: 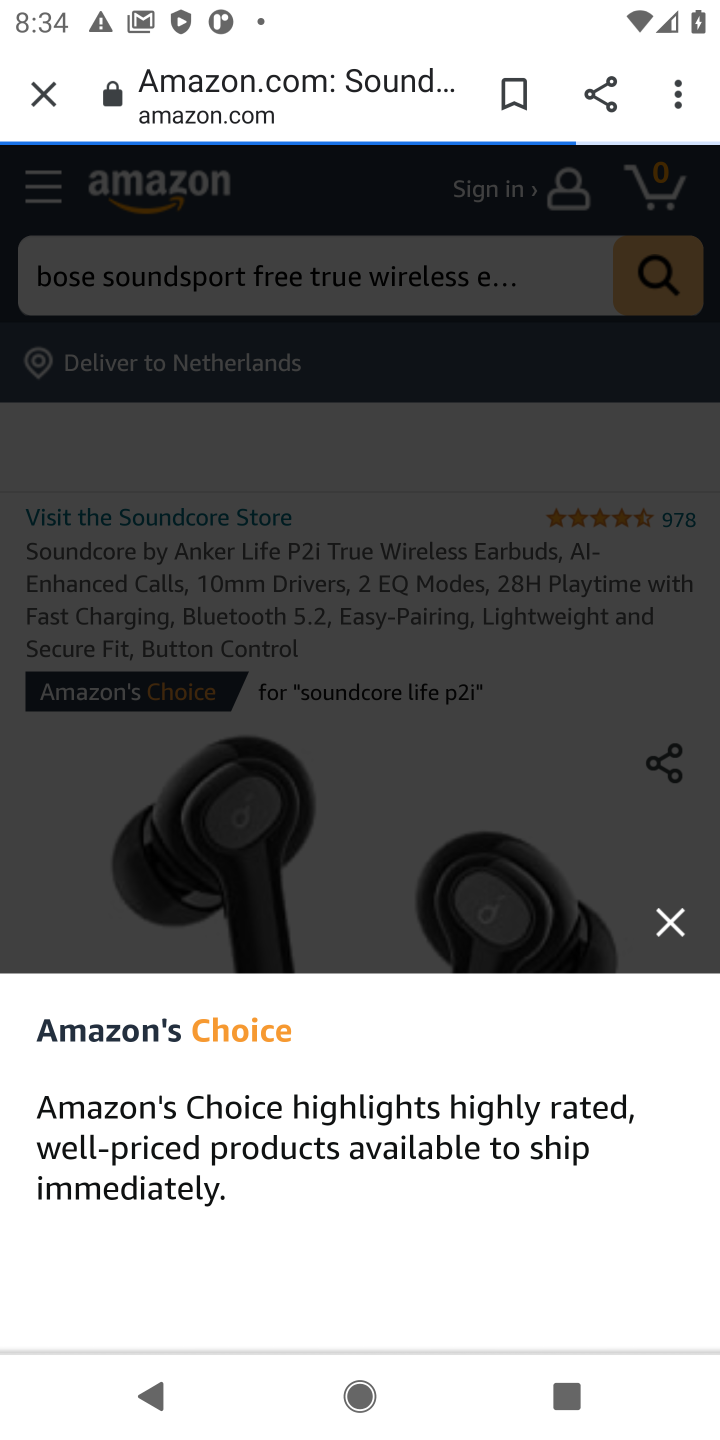
Step 26: click (666, 921)
Your task to perform on an android device: View the shopping cart on amazon. Search for "bose soundsport free" on amazon, select the first entry, add it to the cart, then select checkout. Image 27: 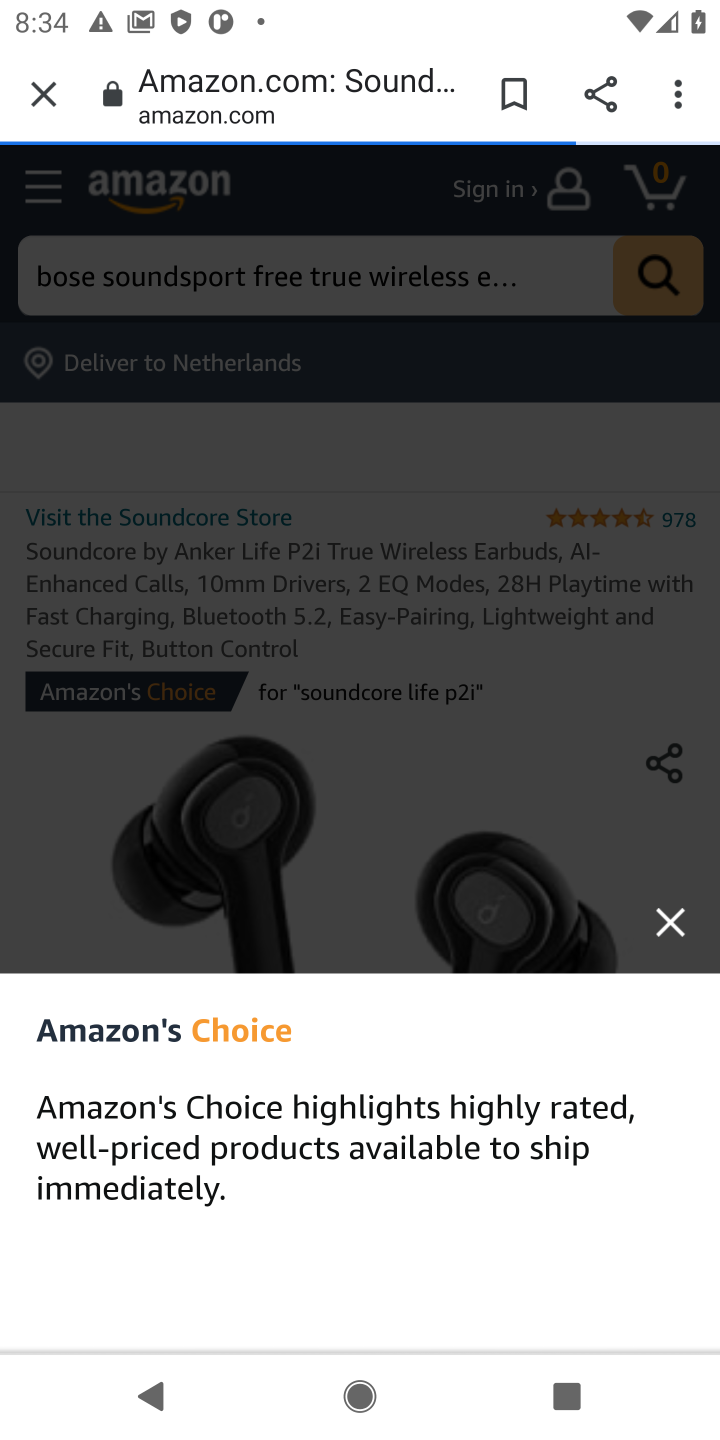
Step 27: click (669, 924)
Your task to perform on an android device: View the shopping cart on amazon. Search for "bose soundsport free" on amazon, select the first entry, add it to the cart, then select checkout. Image 28: 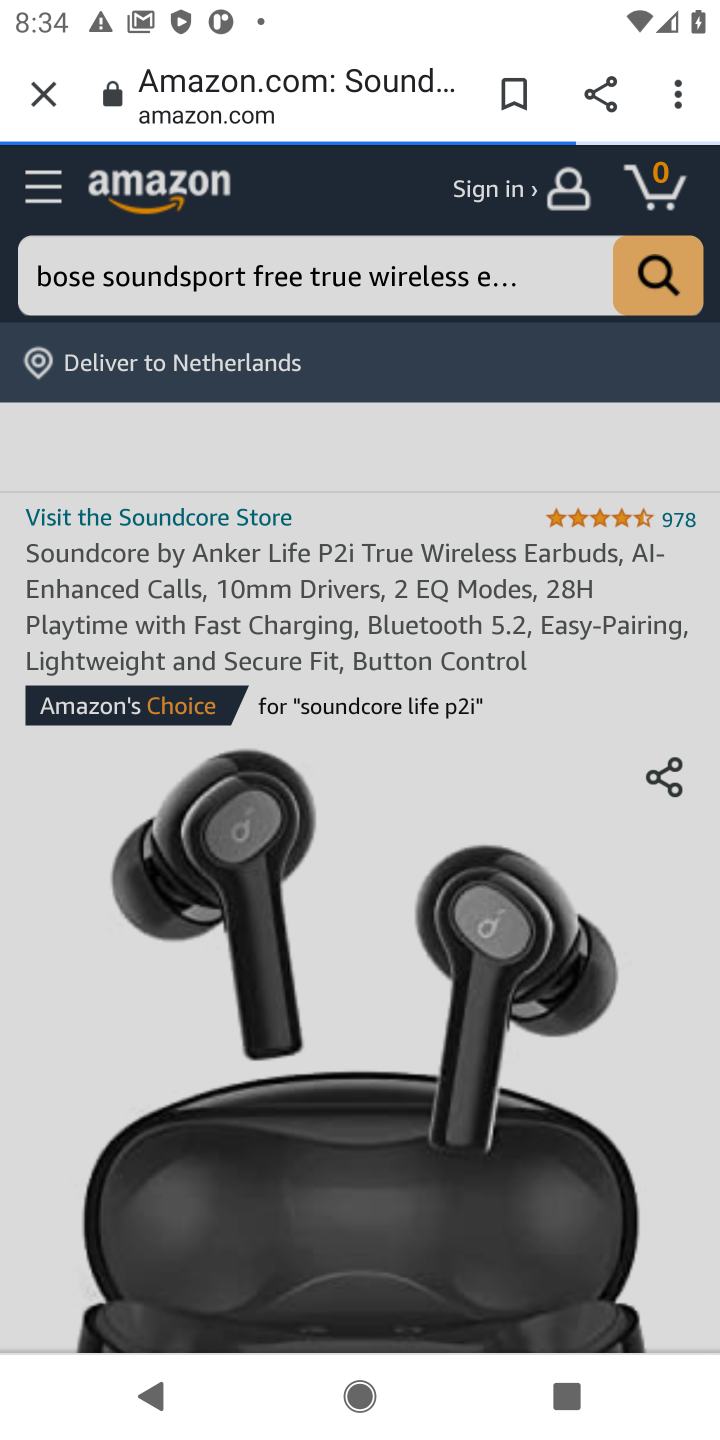
Step 28: drag from (394, 1265) to (486, 394)
Your task to perform on an android device: View the shopping cart on amazon. Search for "bose soundsport free" on amazon, select the first entry, add it to the cart, then select checkout. Image 29: 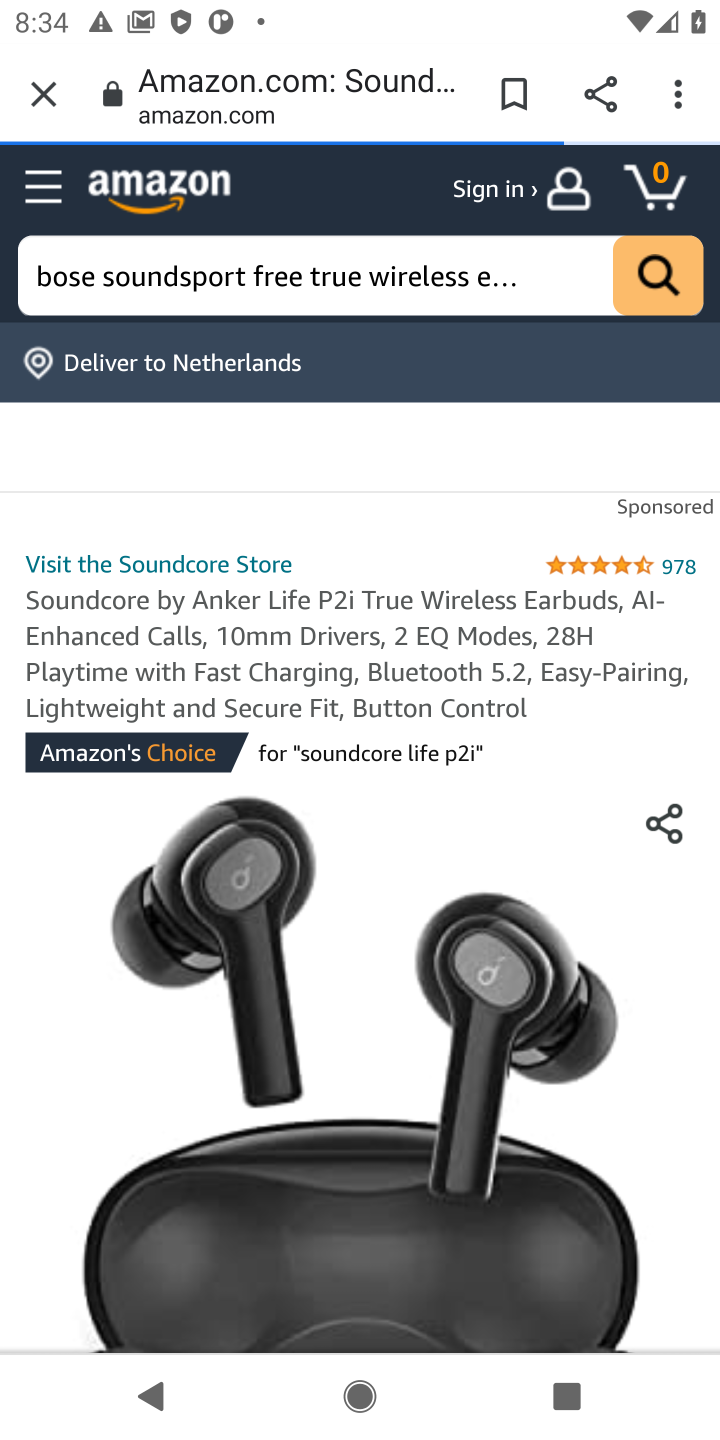
Step 29: drag from (423, 1126) to (462, 292)
Your task to perform on an android device: View the shopping cart on amazon. Search for "bose soundsport free" on amazon, select the first entry, add it to the cart, then select checkout. Image 30: 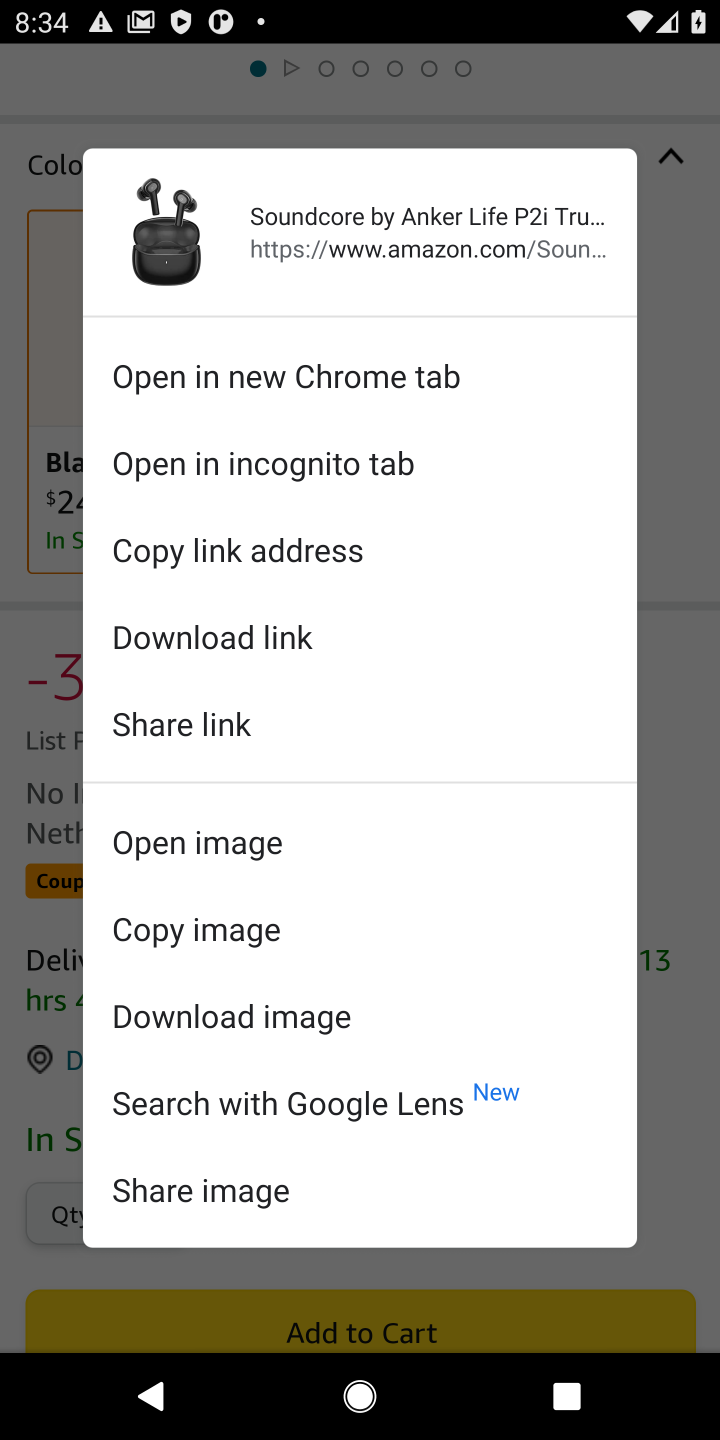
Step 30: click (20, 426)
Your task to perform on an android device: View the shopping cart on amazon. Search for "bose soundsport free" on amazon, select the first entry, add it to the cart, then select checkout. Image 31: 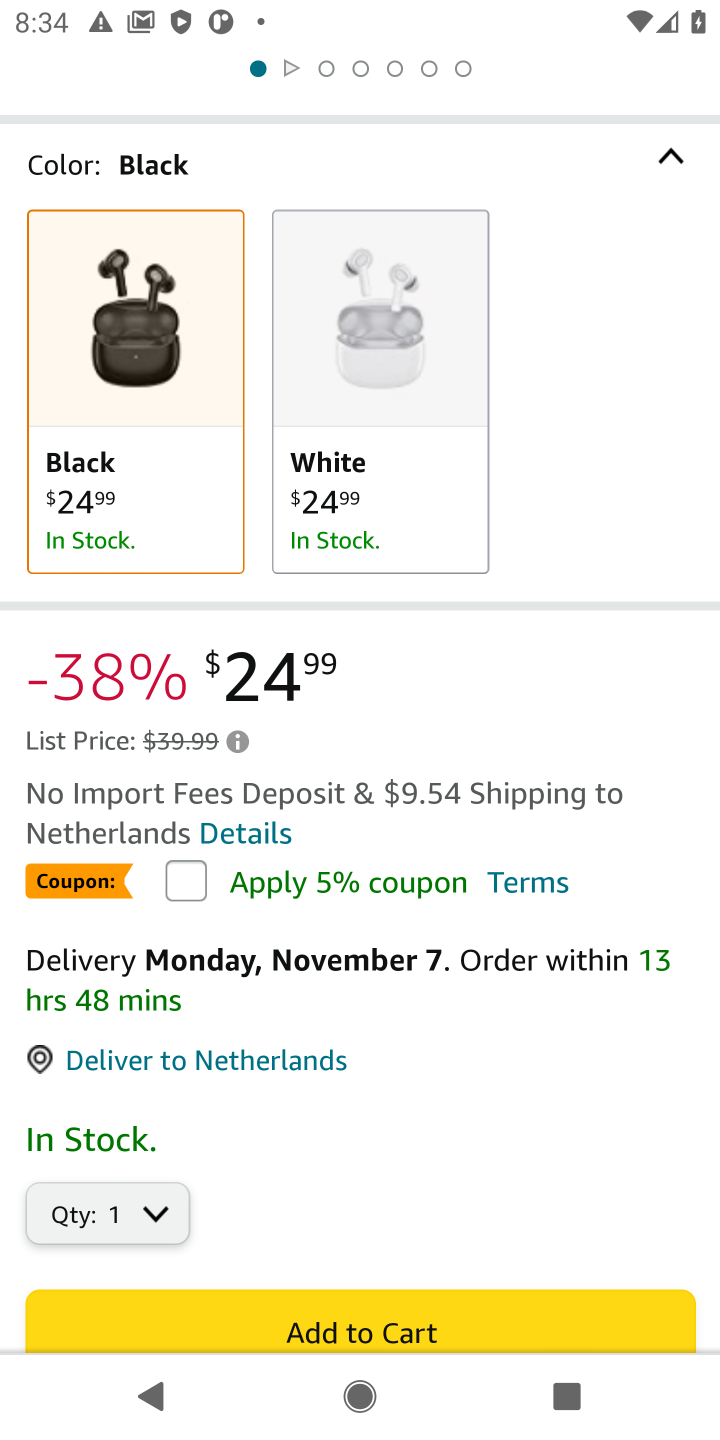
Step 31: click (454, 1320)
Your task to perform on an android device: View the shopping cart on amazon. Search for "bose soundsport free" on amazon, select the first entry, add it to the cart, then select checkout. Image 32: 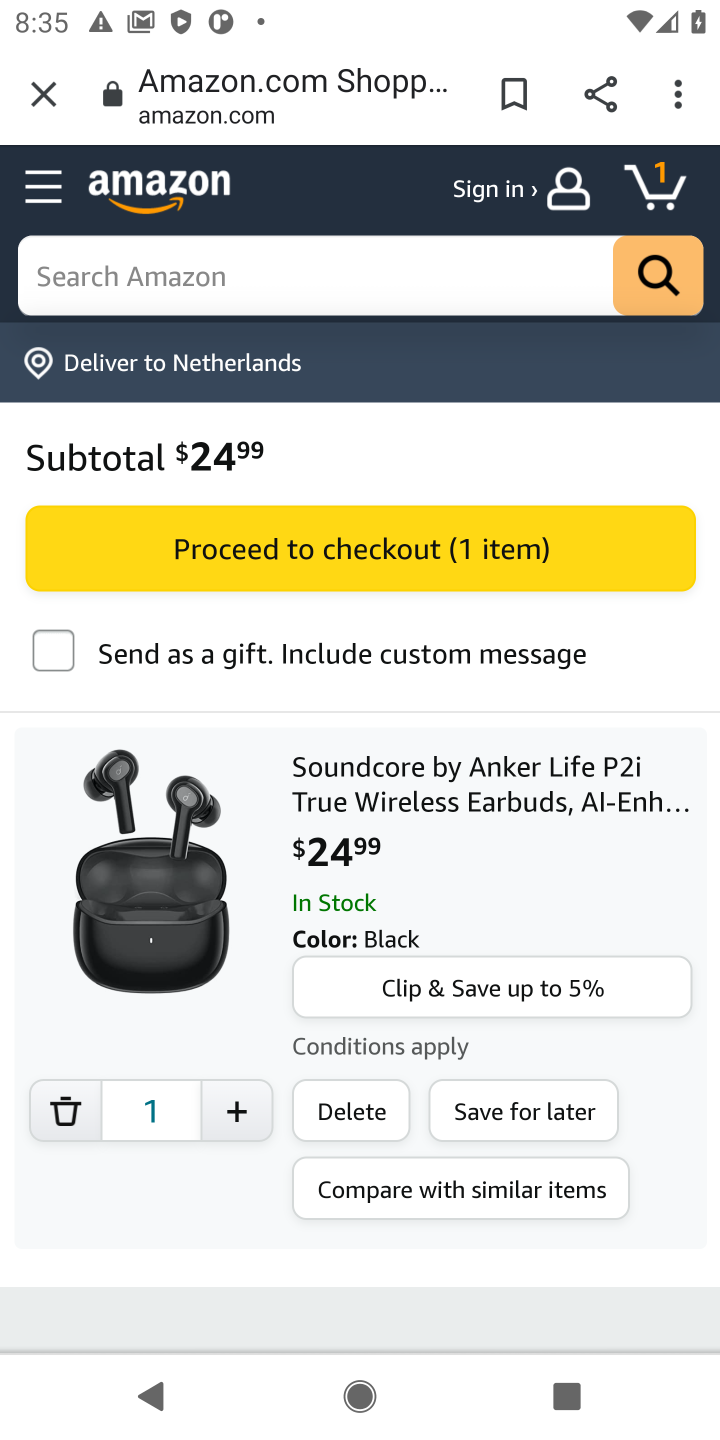
Step 32: task complete